Your task to perform on an android device: change the upload size in google photos Image 0: 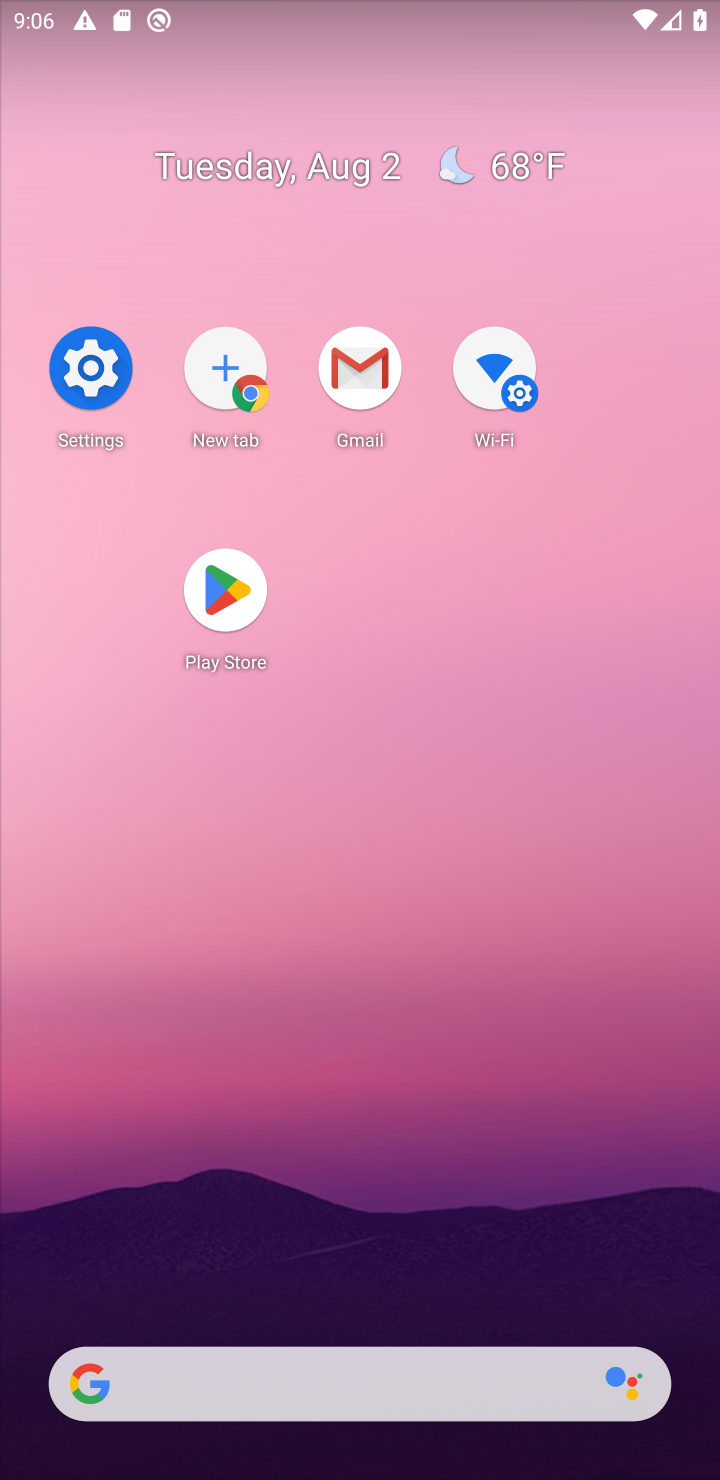
Step 0: click (441, 505)
Your task to perform on an android device: change the upload size in google photos Image 1: 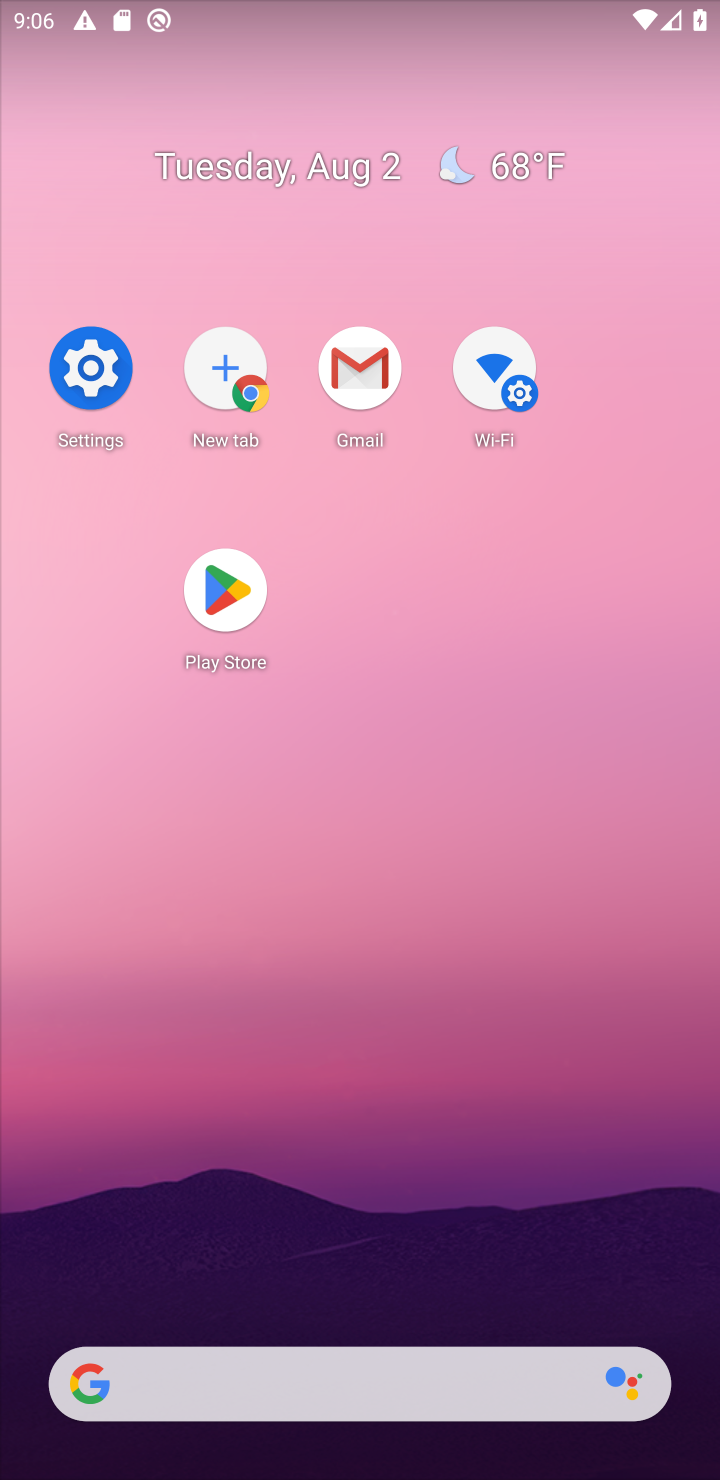
Step 1: click (269, 489)
Your task to perform on an android device: change the upload size in google photos Image 2: 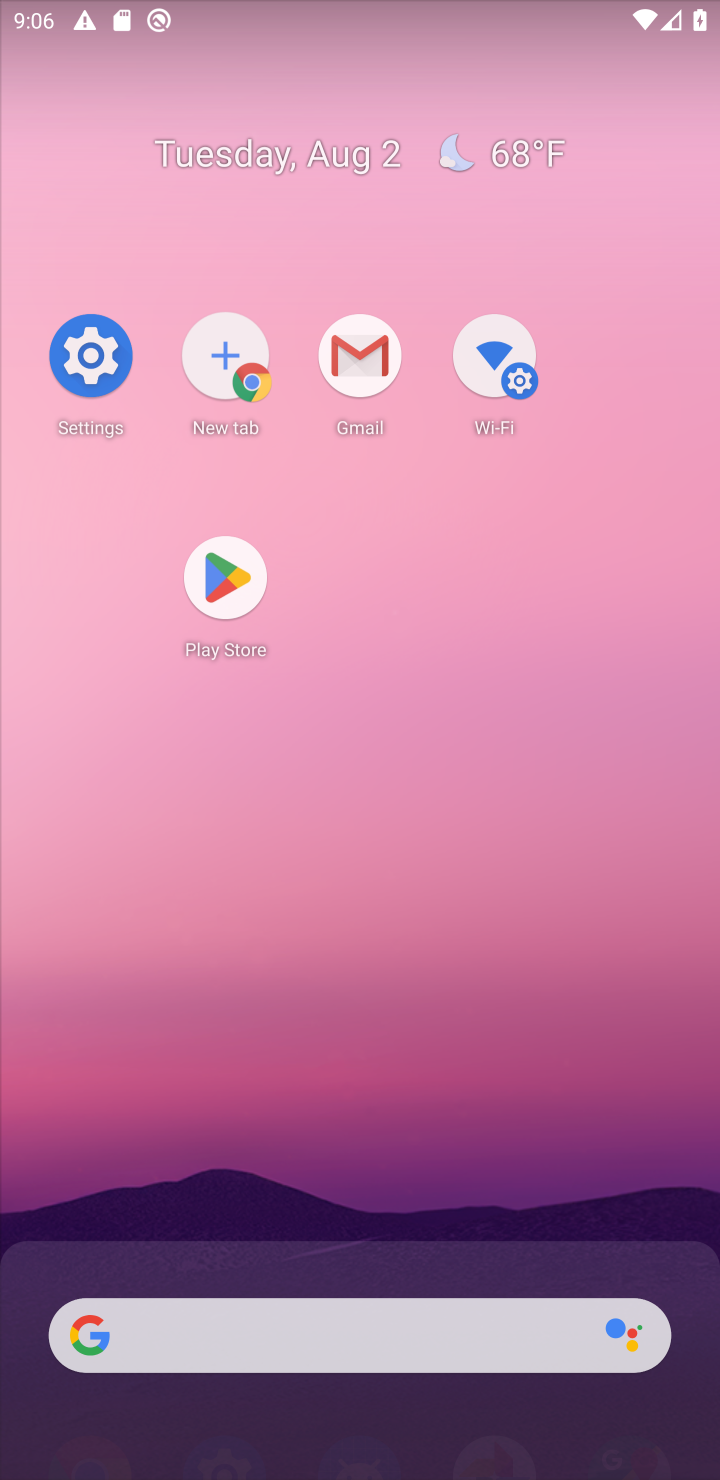
Step 2: click (260, 349)
Your task to perform on an android device: change the upload size in google photos Image 3: 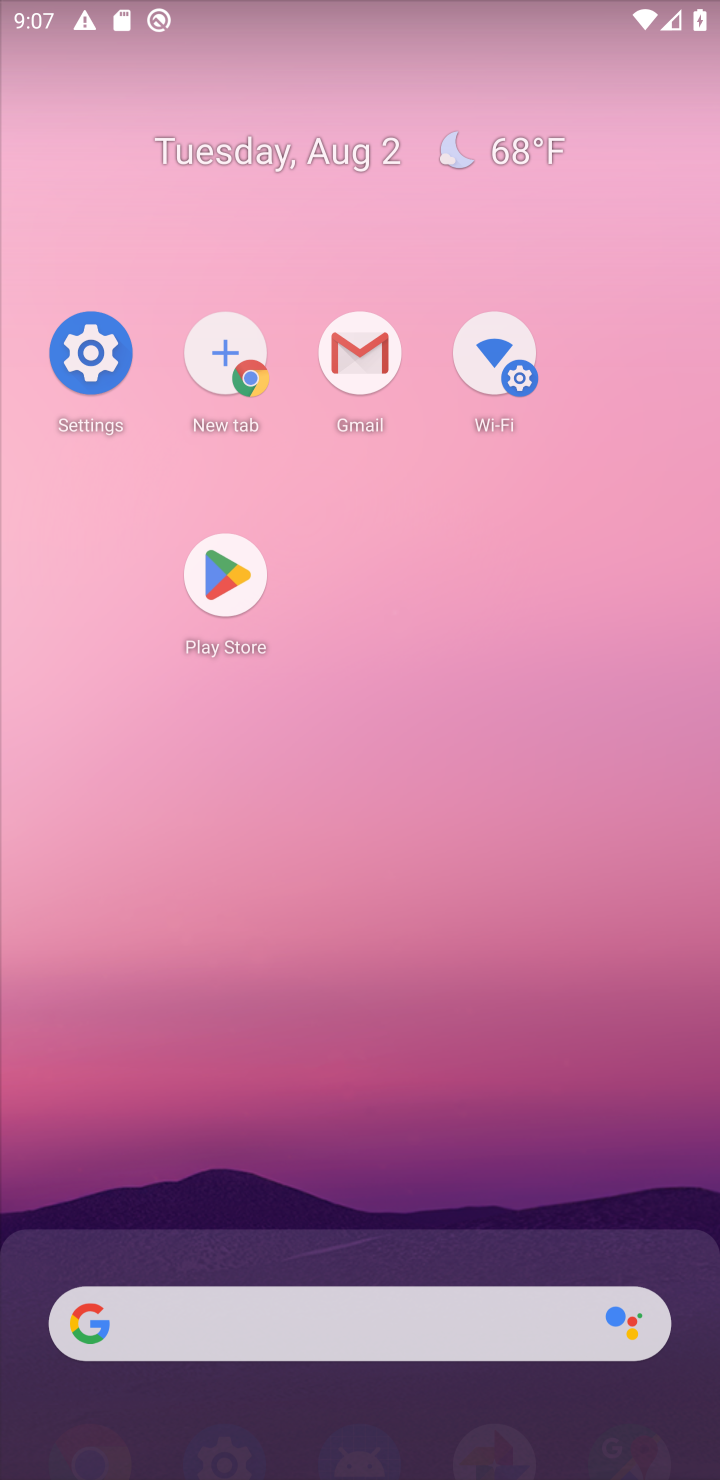
Step 3: click (456, 266)
Your task to perform on an android device: change the upload size in google photos Image 4: 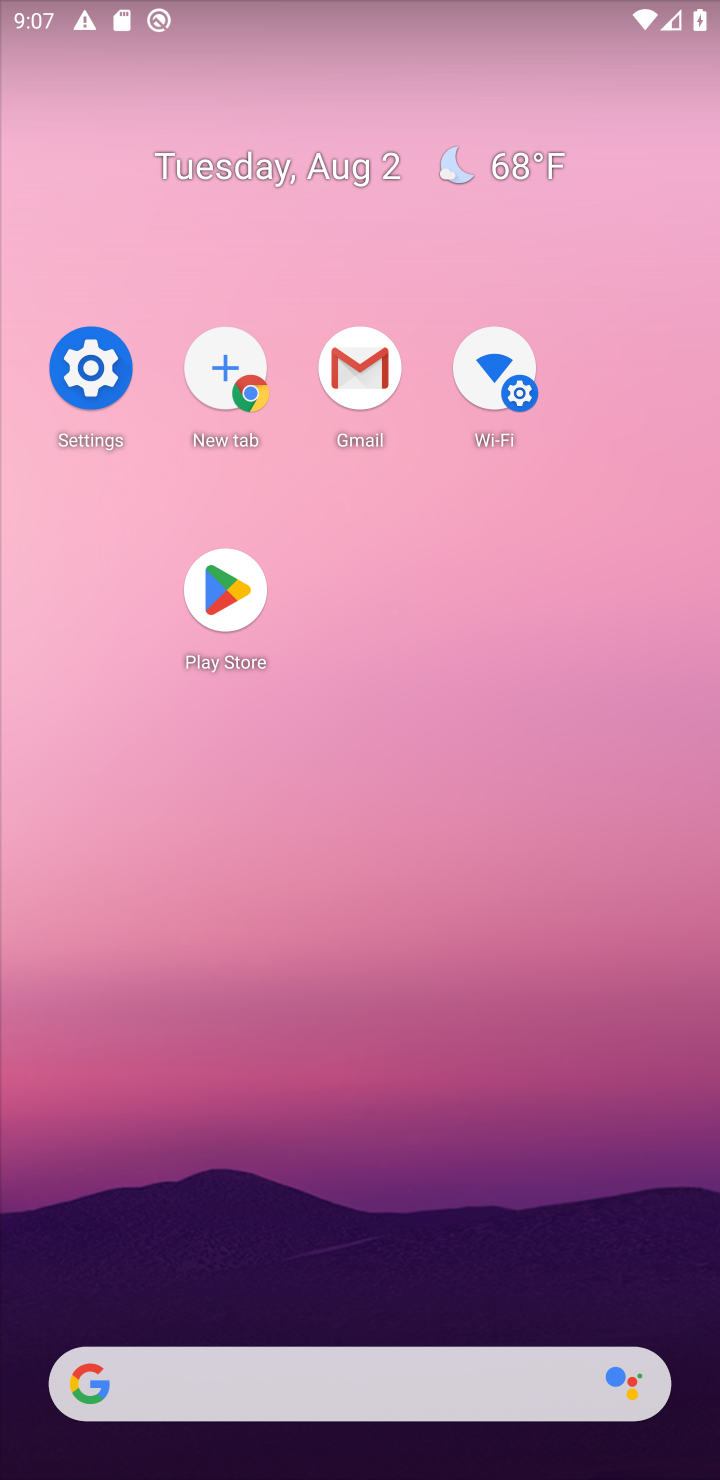
Step 4: click (340, 269)
Your task to perform on an android device: change the upload size in google photos Image 5: 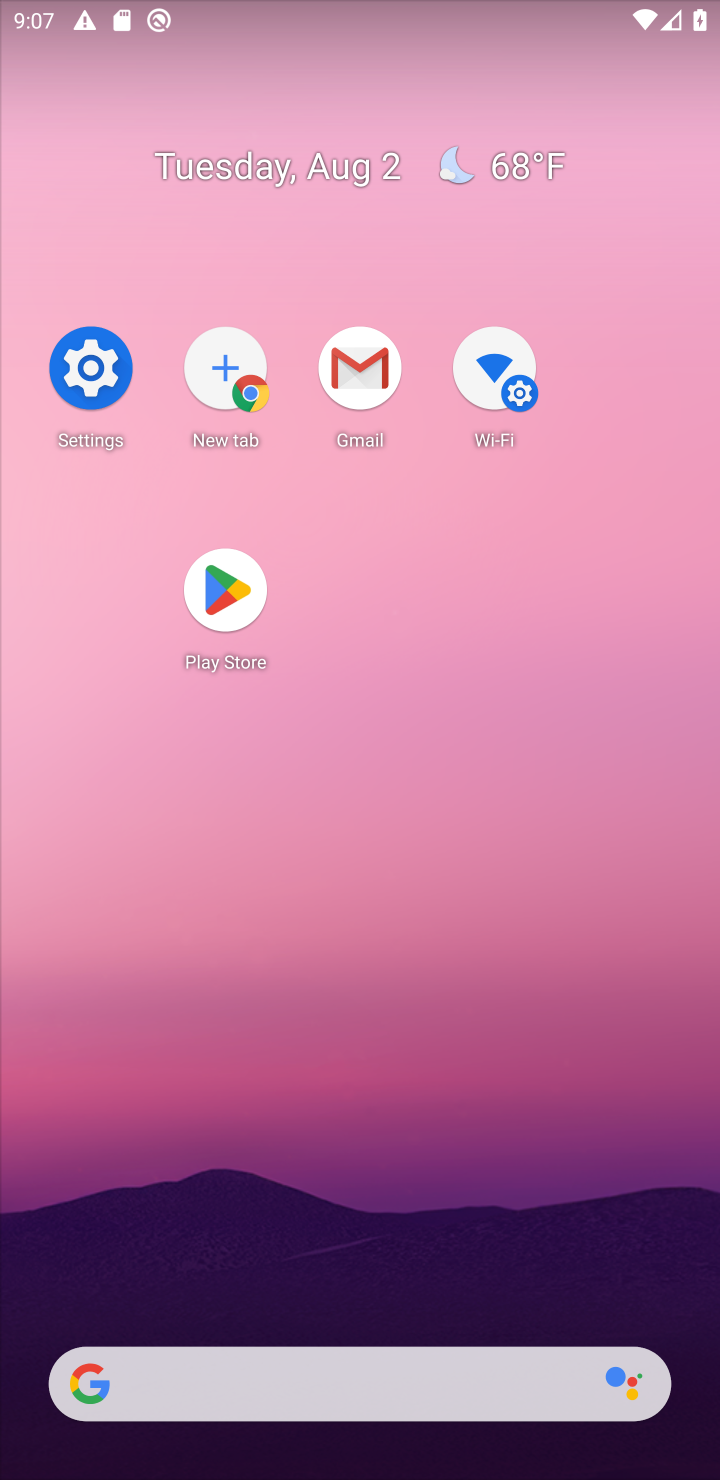
Step 5: drag from (284, 257) to (364, 554)
Your task to perform on an android device: change the upload size in google photos Image 6: 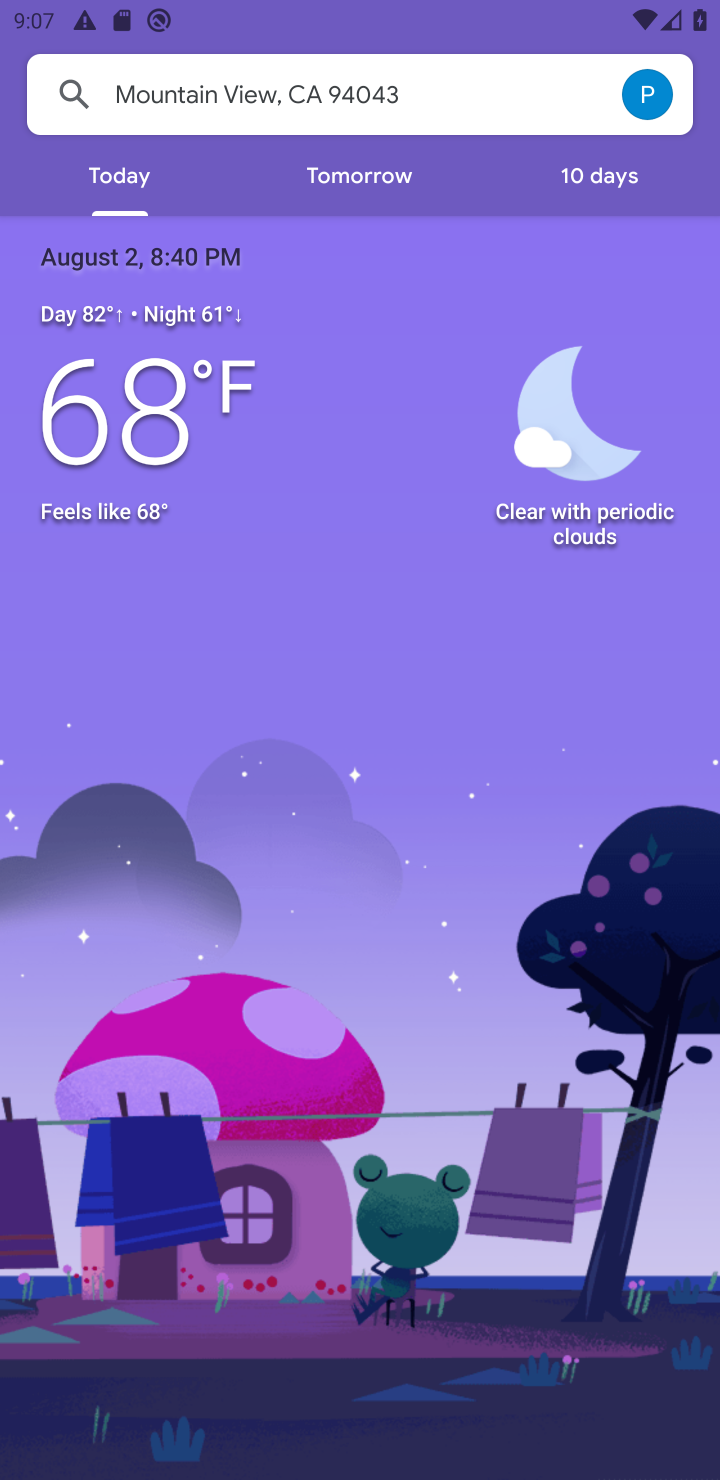
Step 6: press back button
Your task to perform on an android device: change the upload size in google photos Image 7: 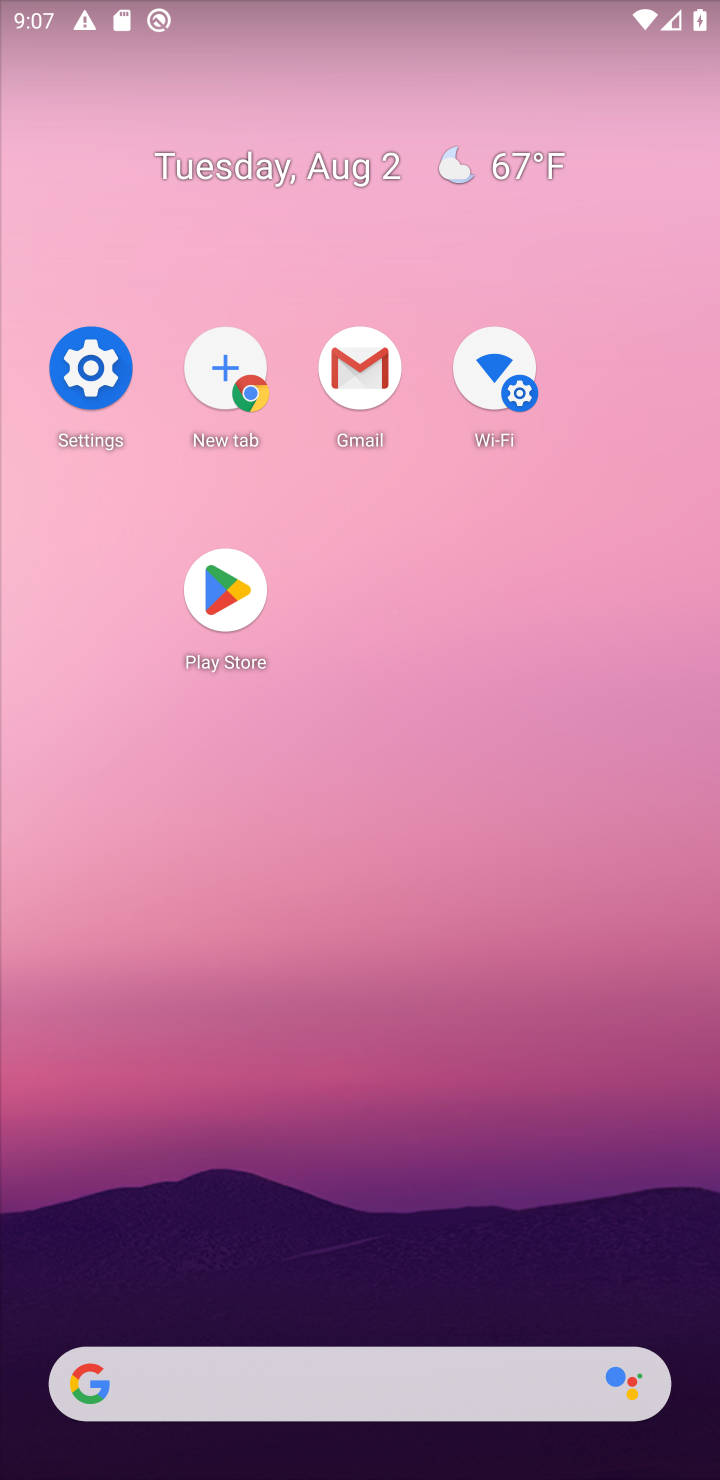
Step 7: drag from (410, 900) to (369, 715)
Your task to perform on an android device: change the upload size in google photos Image 8: 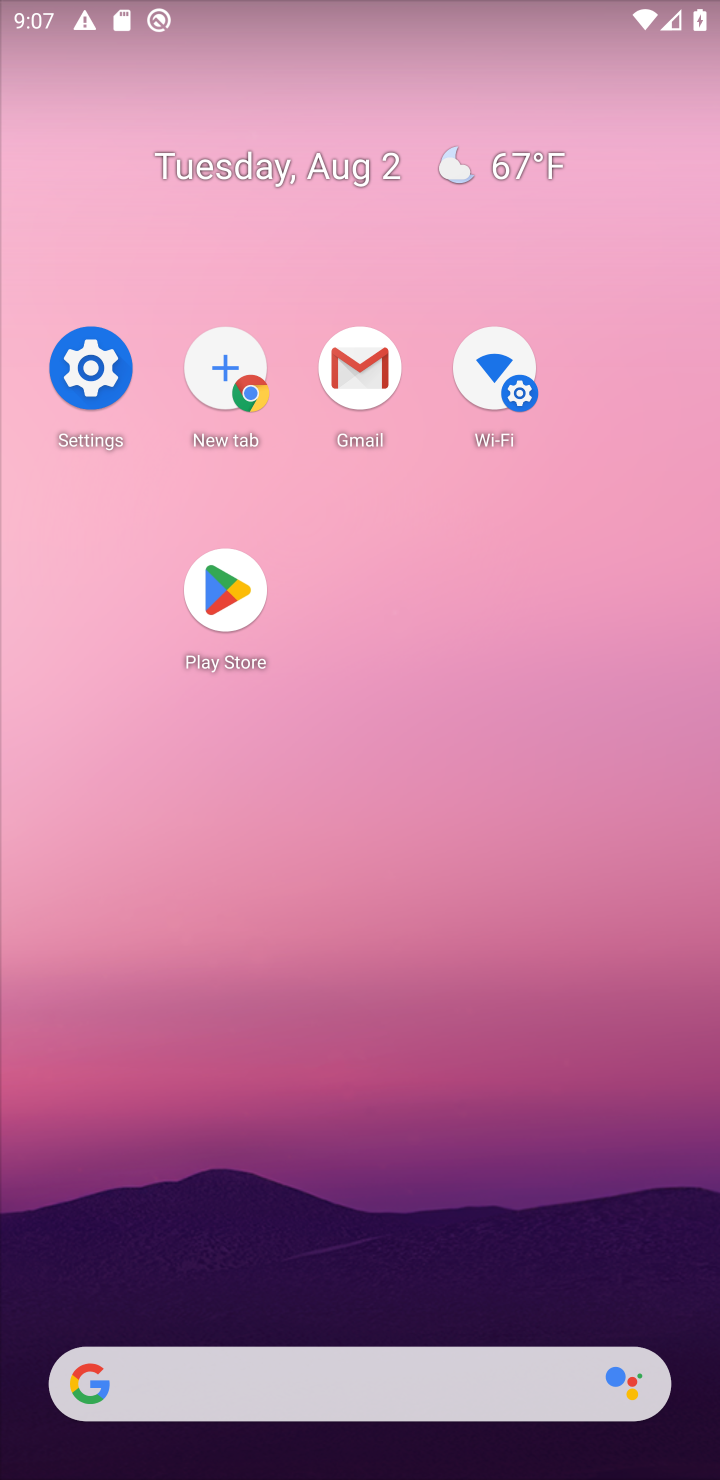
Step 8: drag from (290, 890) to (299, 528)
Your task to perform on an android device: change the upload size in google photos Image 9: 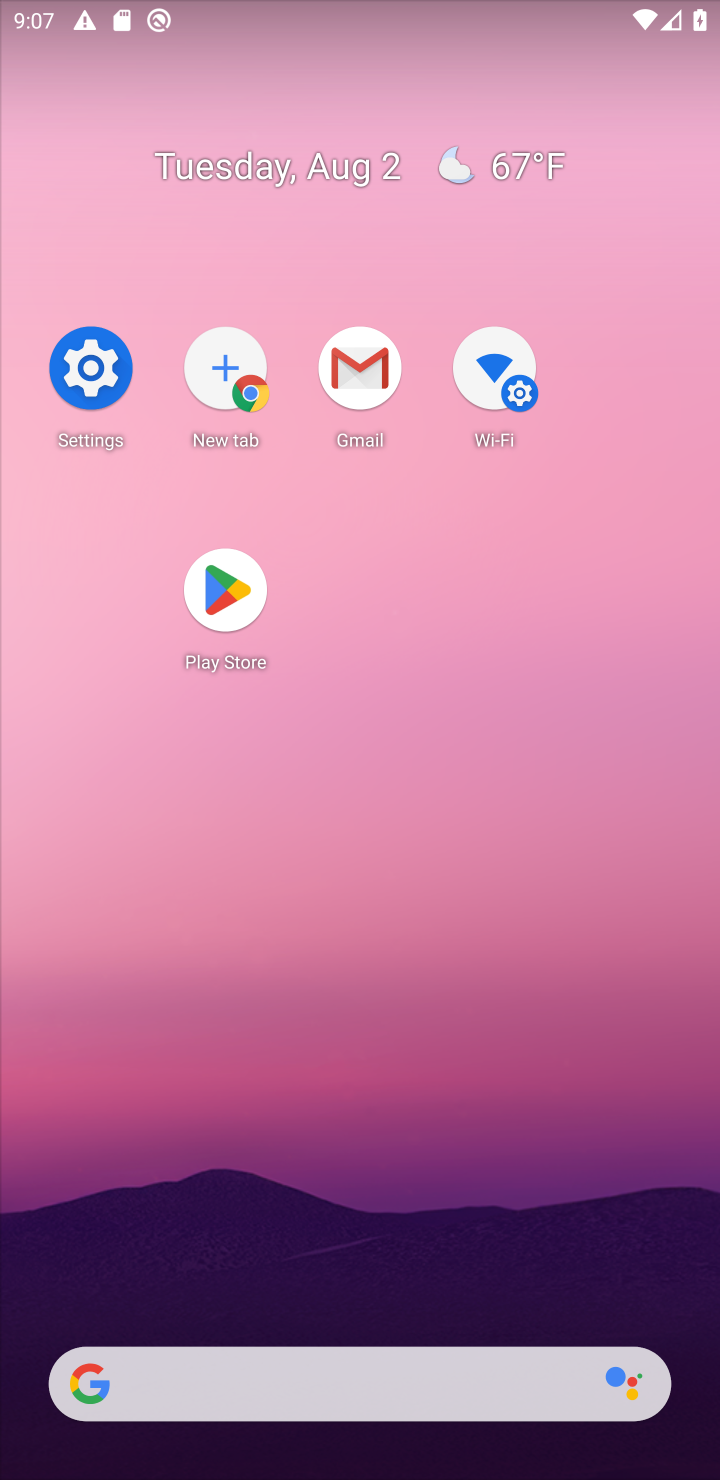
Step 9: drag from (358, 766) to (358, 507)
Your task to perform on an android device: change the upload size in google photos Image 10: 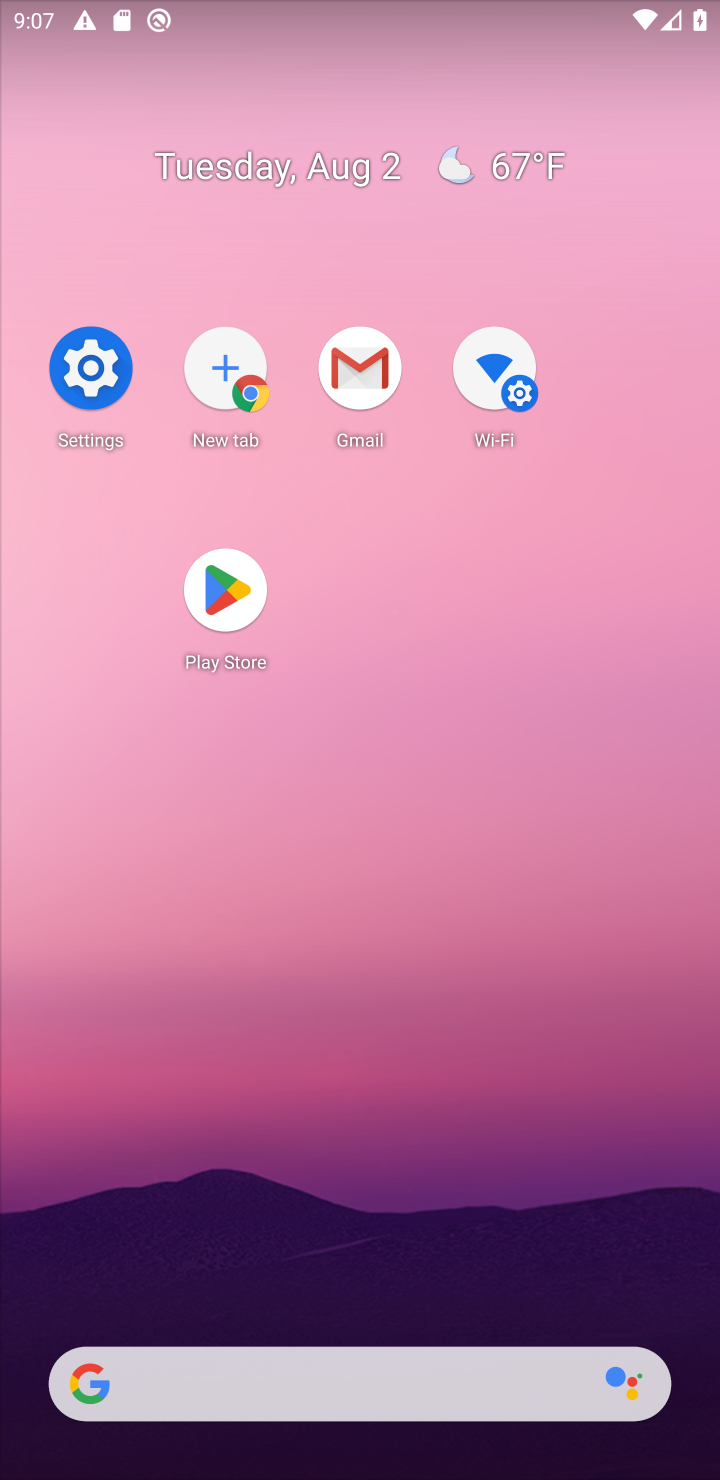
Step 10: drag from (482, 1056) to (379, 454)
Your task to perform on an android device: change the upload size in google photos Image 11: 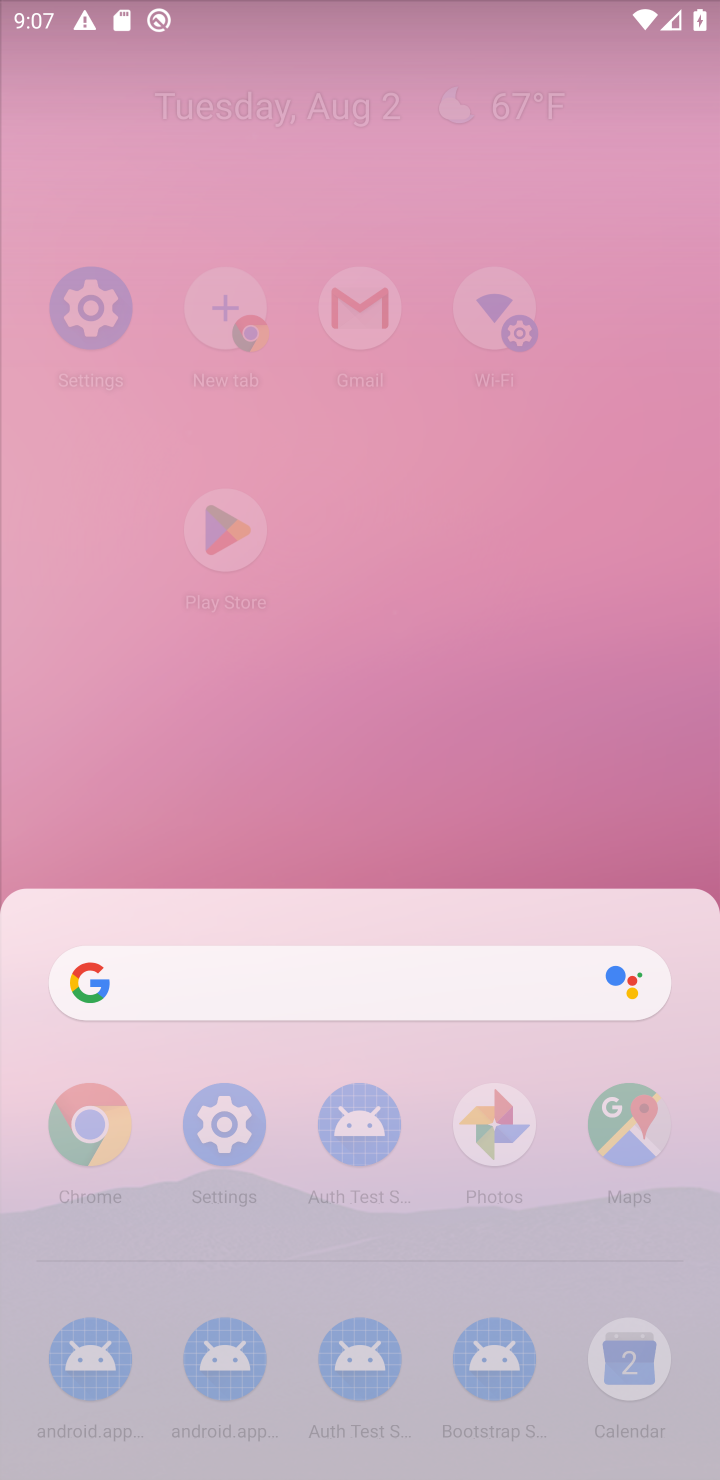
Step 11: click (332, 204)
Your task to perform on an android device: change the upload size in google photos Image 12: 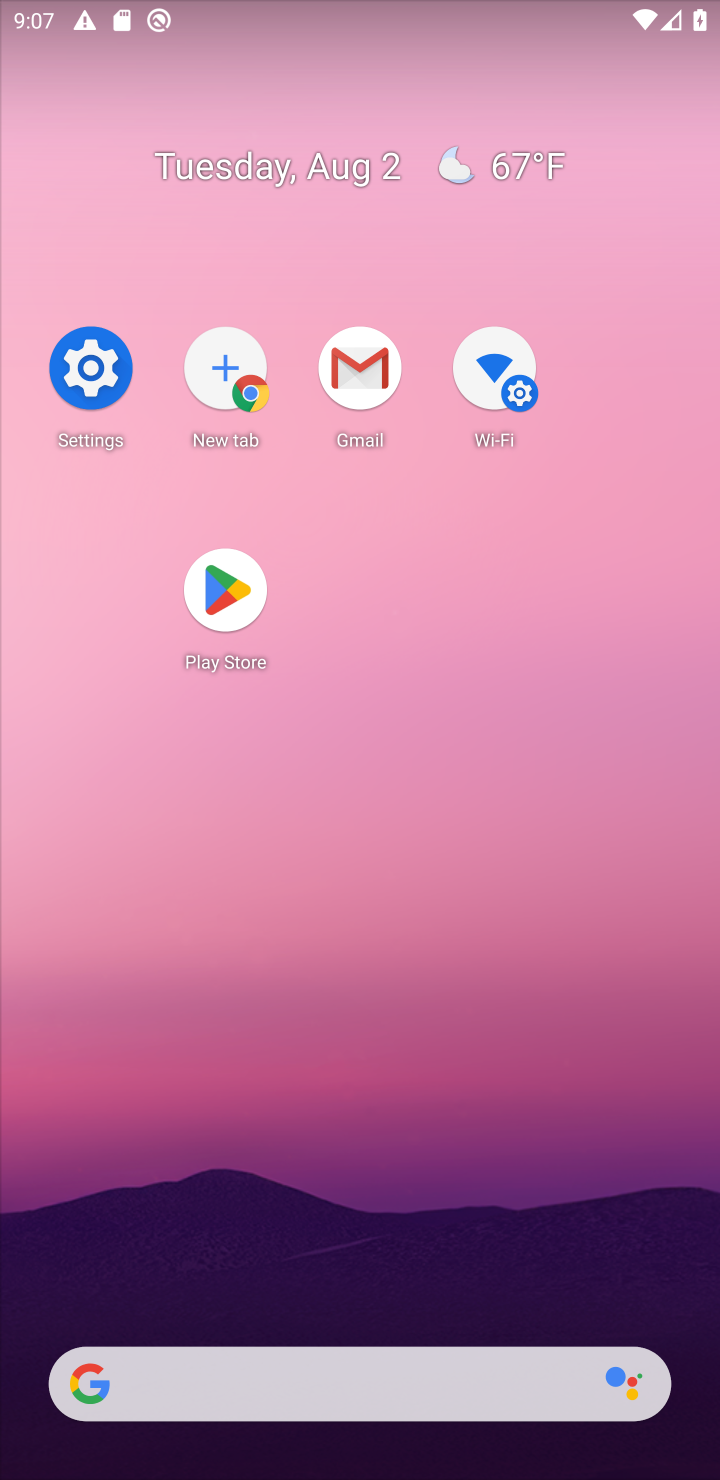
Step 12: drag from (401, 478) to (313, 442)
Your task to perform on an android device: change the upload size in google photos Image 13: 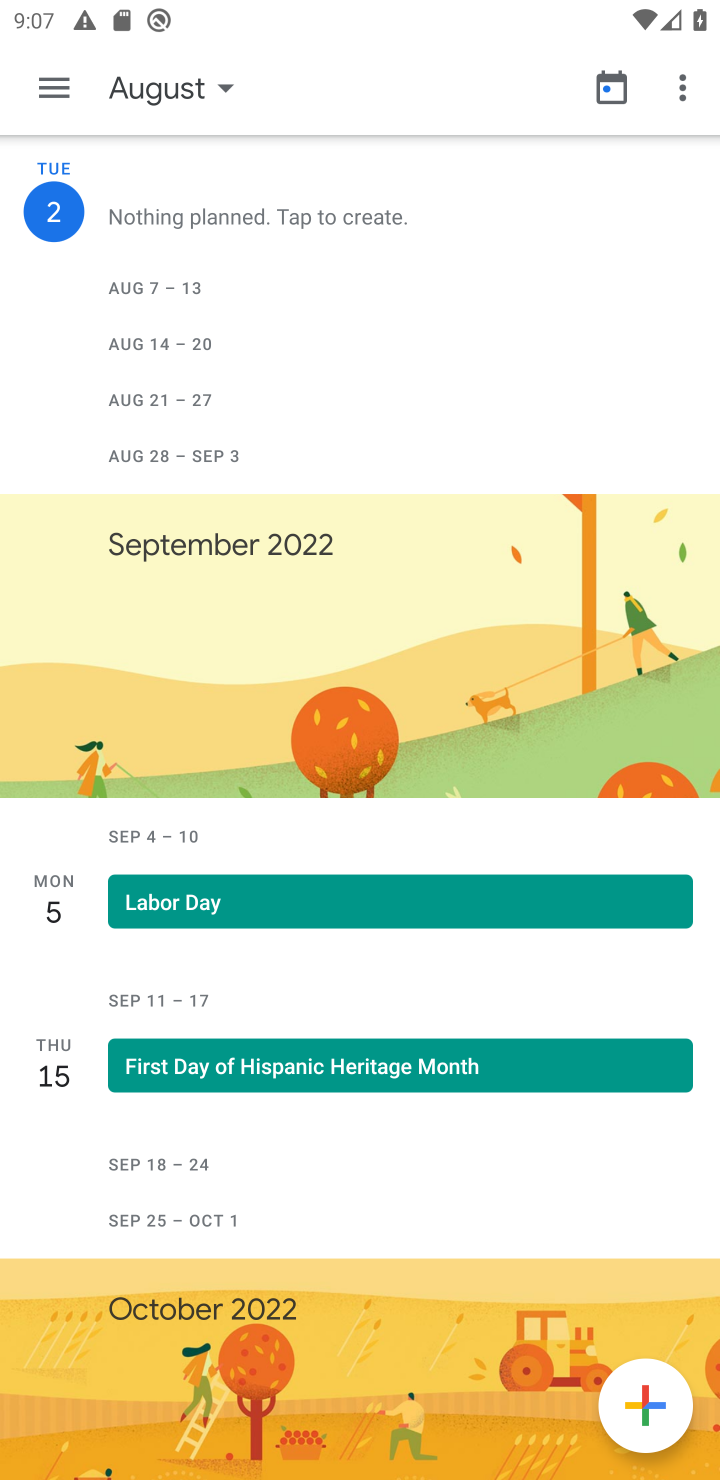
Step 13: click (360, 303)
Your task to perform on an android device: change the upload size in google photos Image 14: 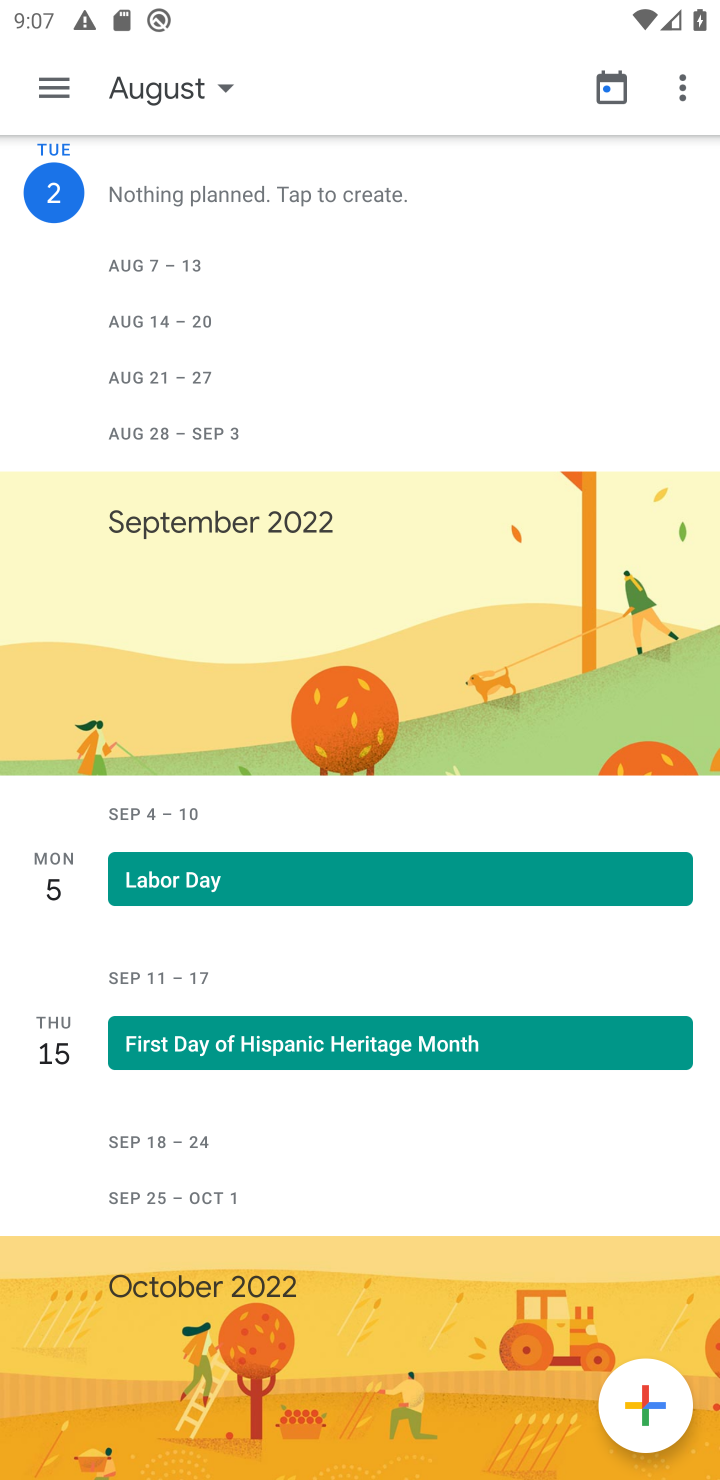
Step 14: press back button
Your task to perform on an android device: change the upload size in google photos Image 15: 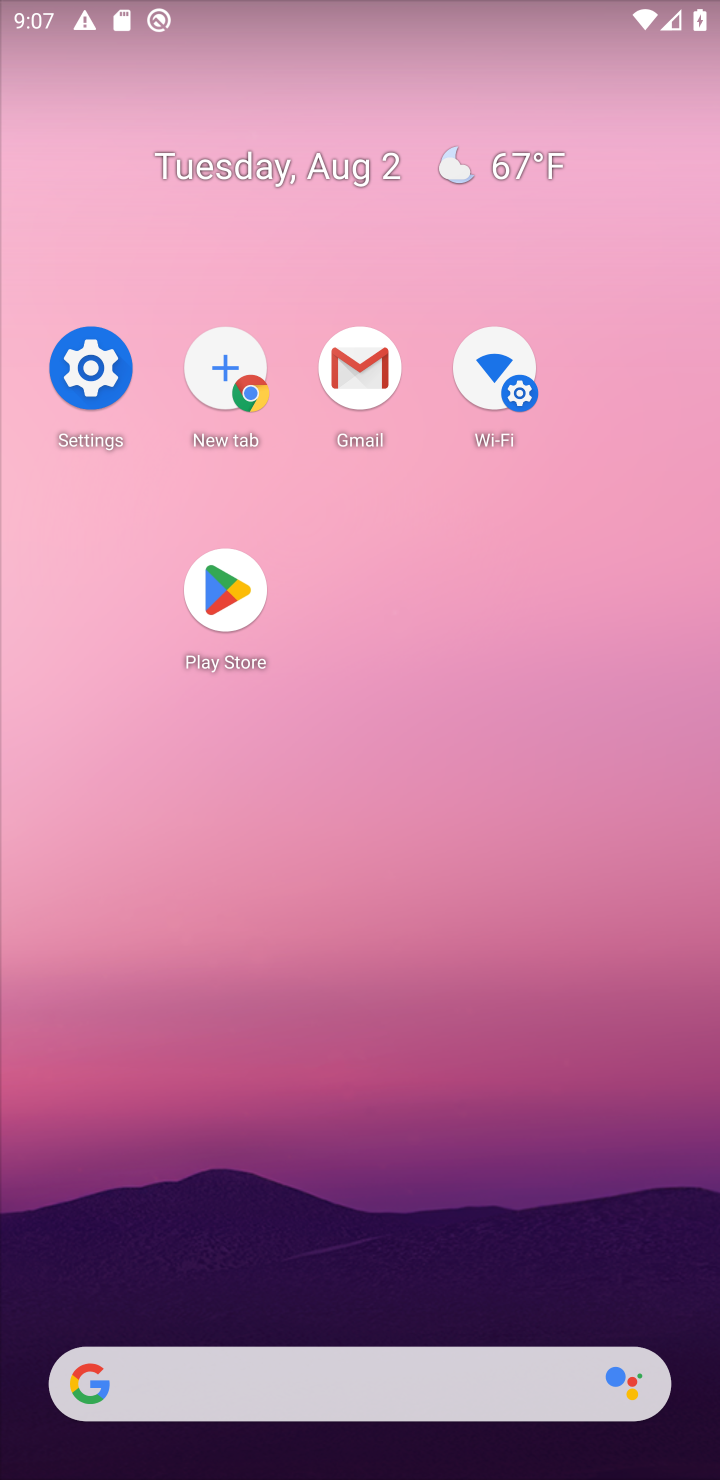
Step 15: drag from (357, 716) to (299, 345)
Your task to perform on an android device: change the upload size in google photos Image 16: 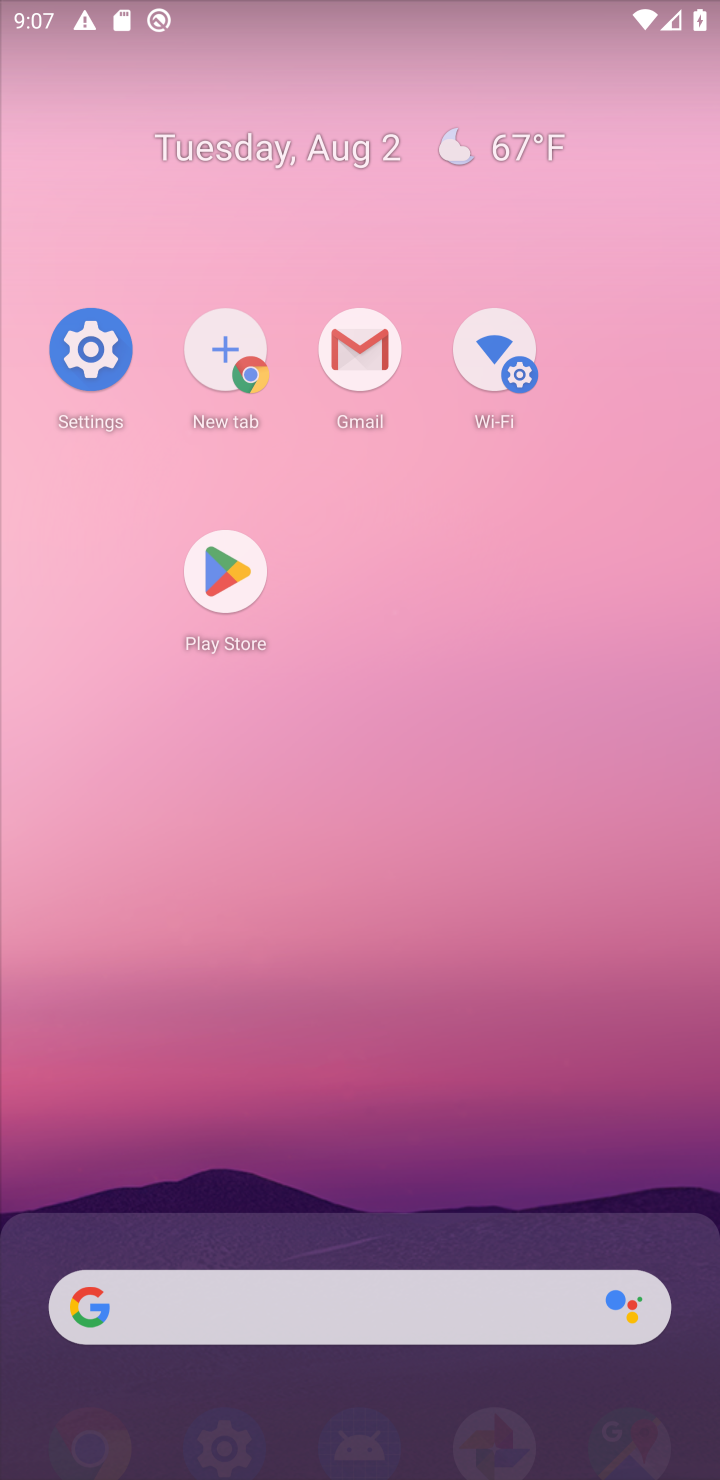
Step 16: drag from (350, 784) to (301, 411)
Your task to perform on an android device: change the upload size in google photos Image 17: 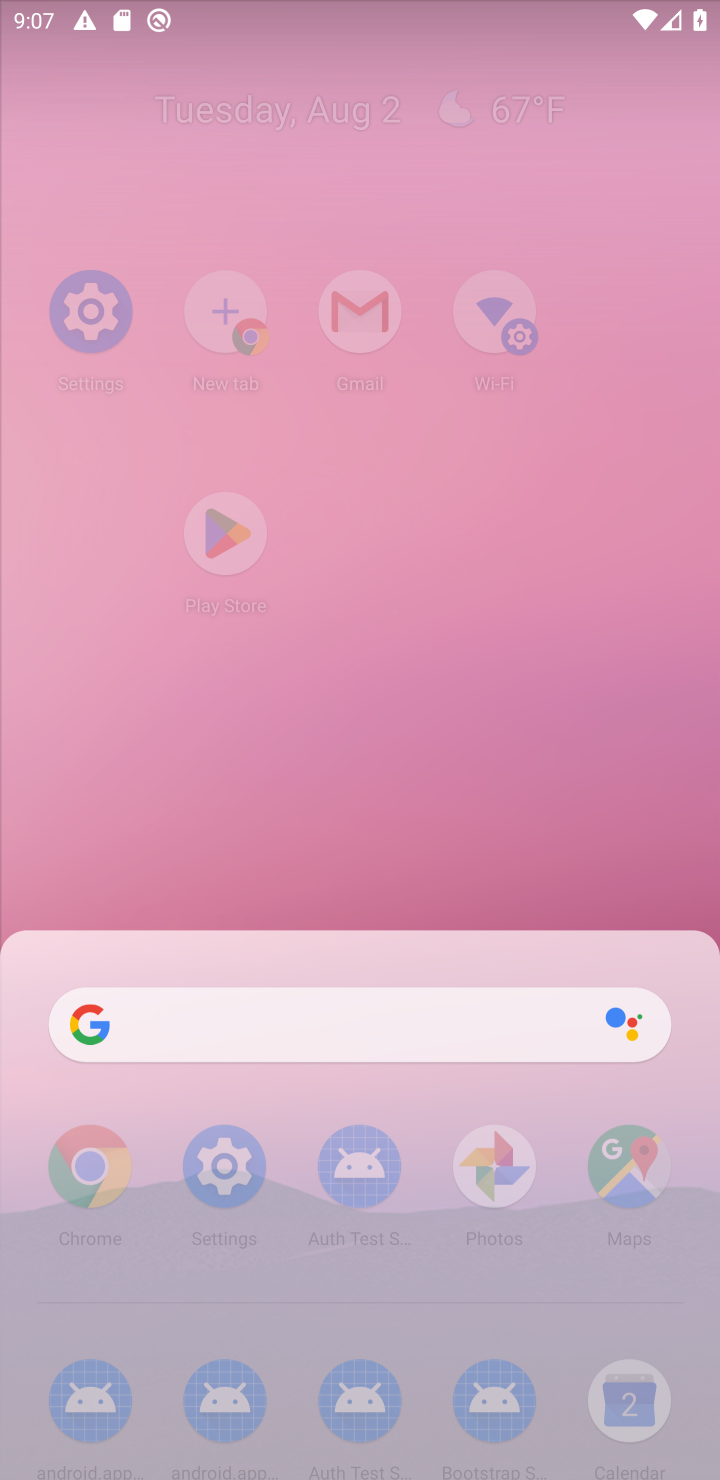
Step 17: drag from (287, 676) to (250, 346)
Your task to perform on an android device: change the upload size in google photos Image 18: 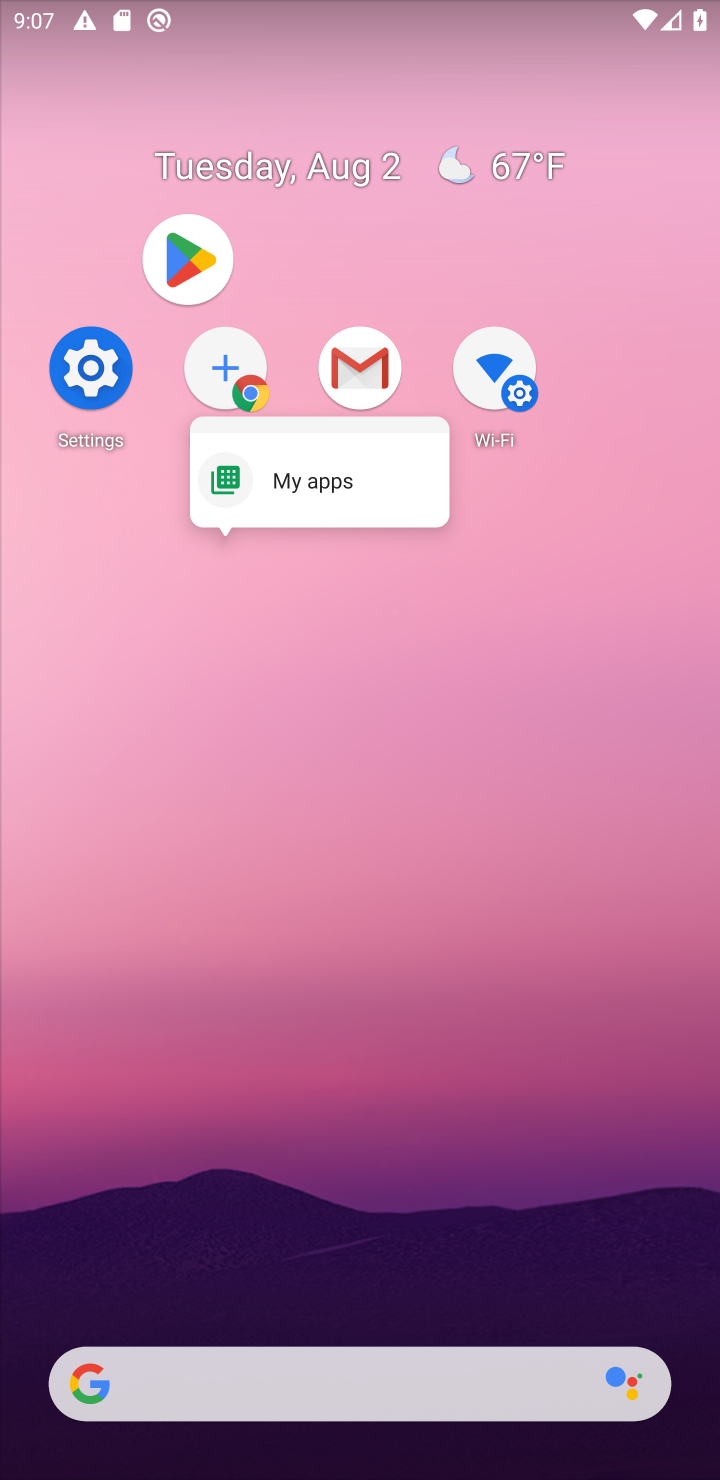
Step 18: click (203, 298)
Your task to perform on an android device: change the upload size in google photos Image 19: 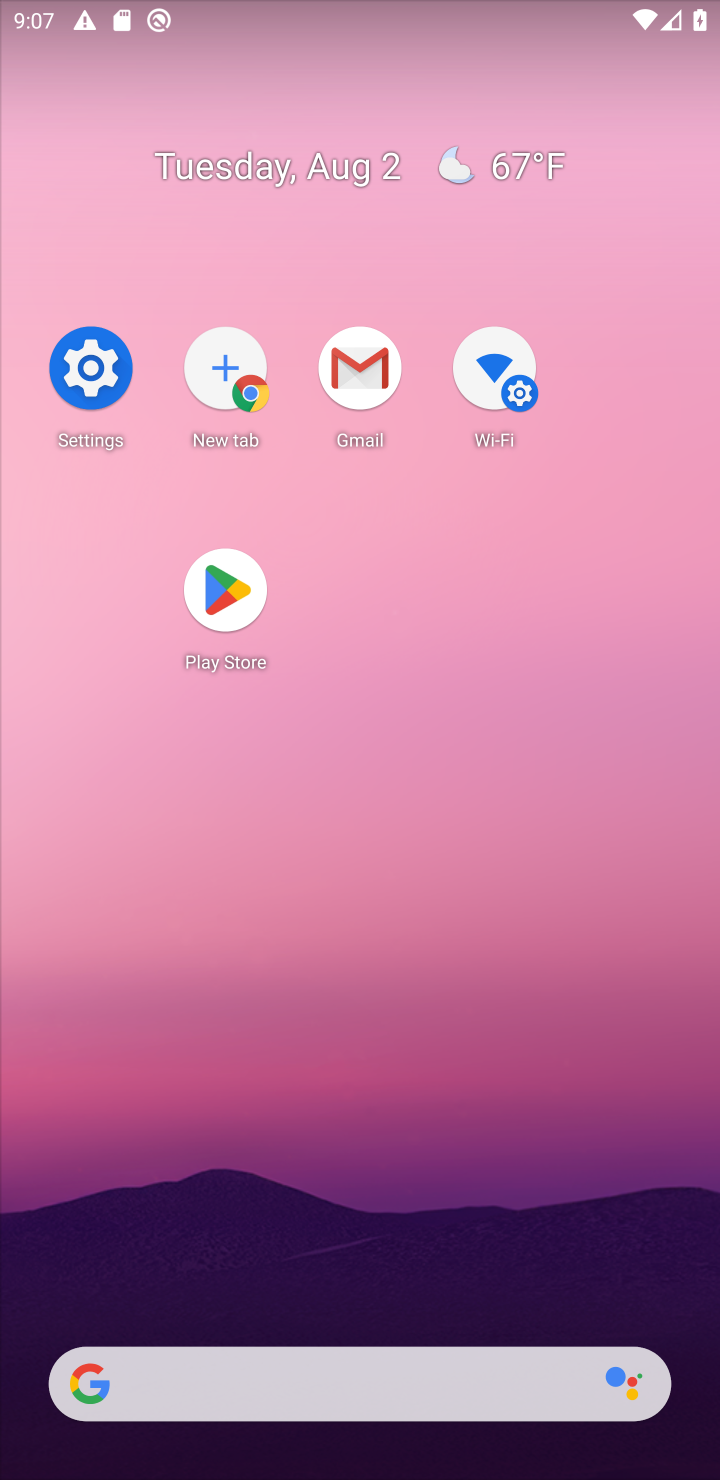
Step 19: drag from (379, 729) to (291, 334)
Your task to perform on an android device: change the upload size in google photos Image 20: 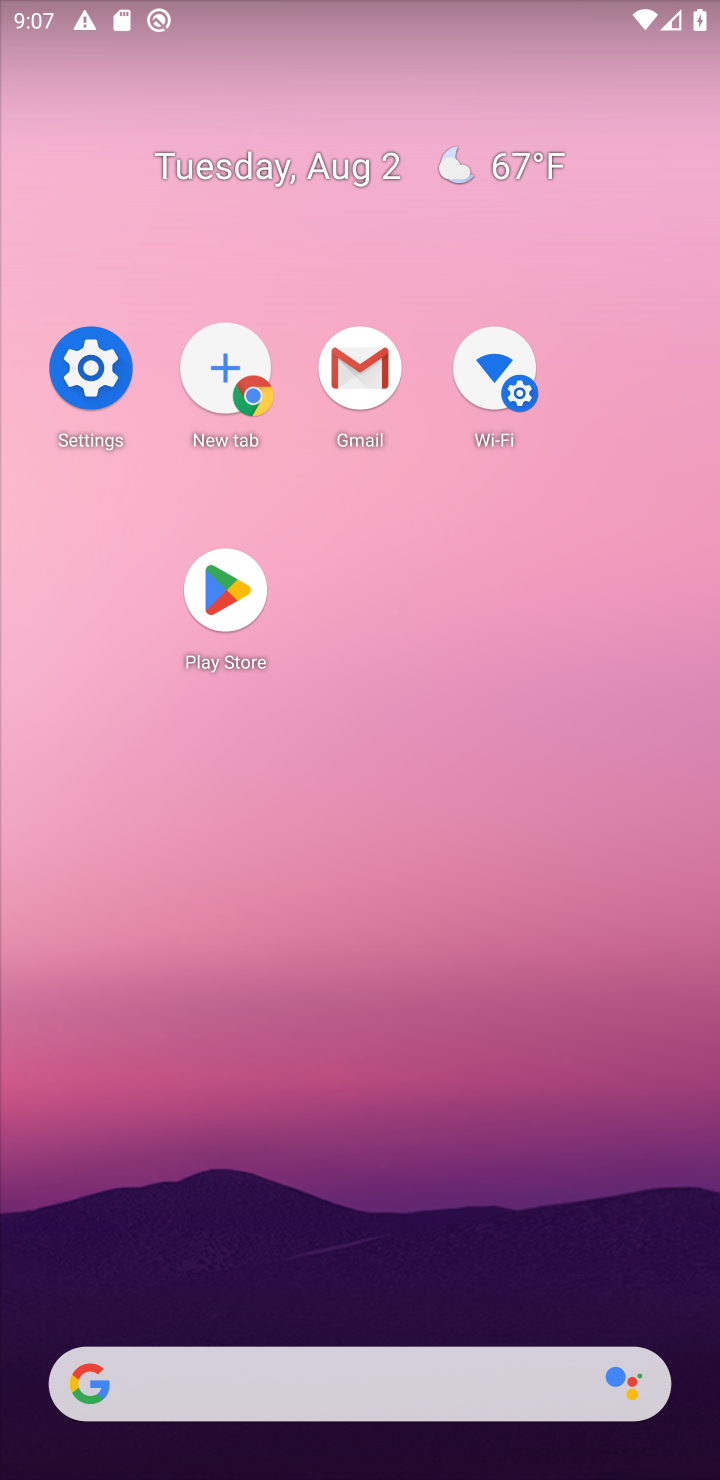
Step 20: drag from (354, 959) to (328, 218)
Your task to perform on an android device: change the upload size in google photos Image 21: 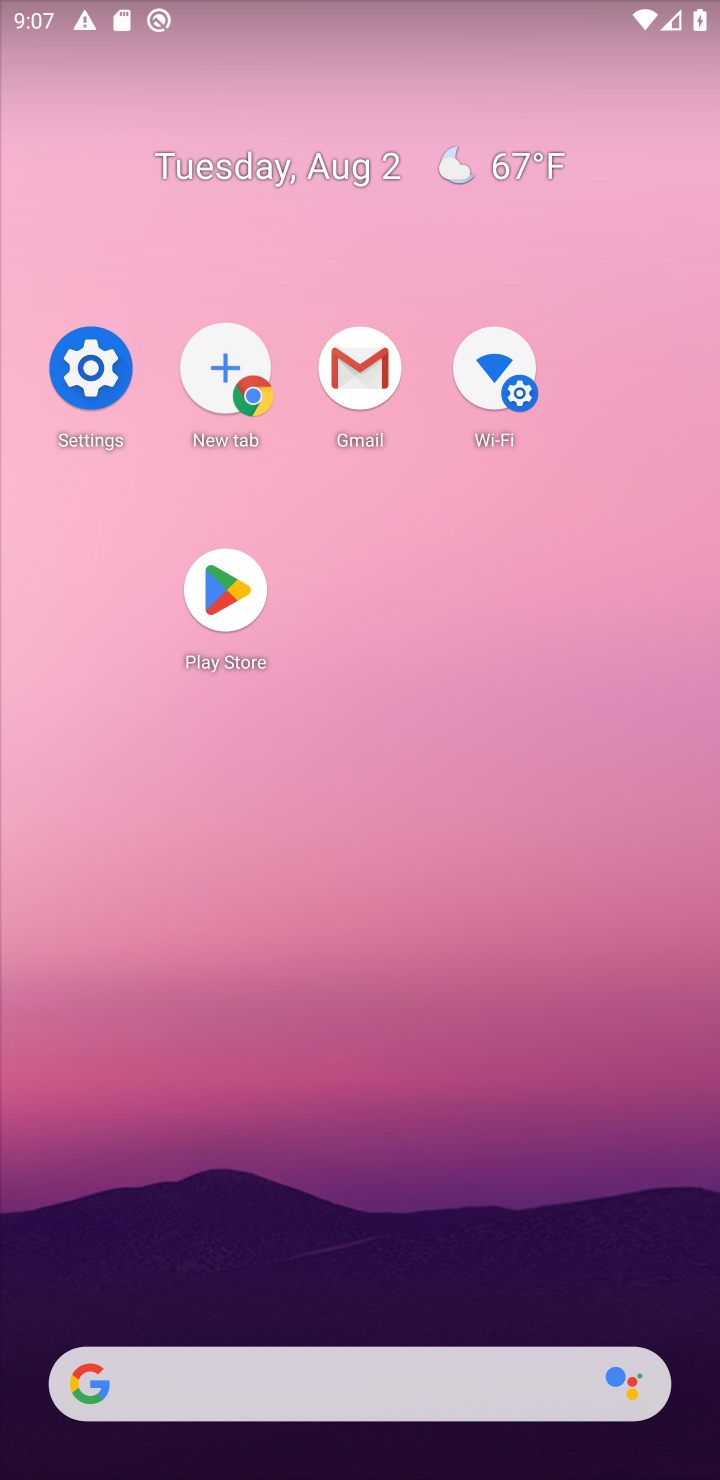
Step 21: click (294, 179)
Your task to perform on an android device: change the upload size in google photos Image 22: 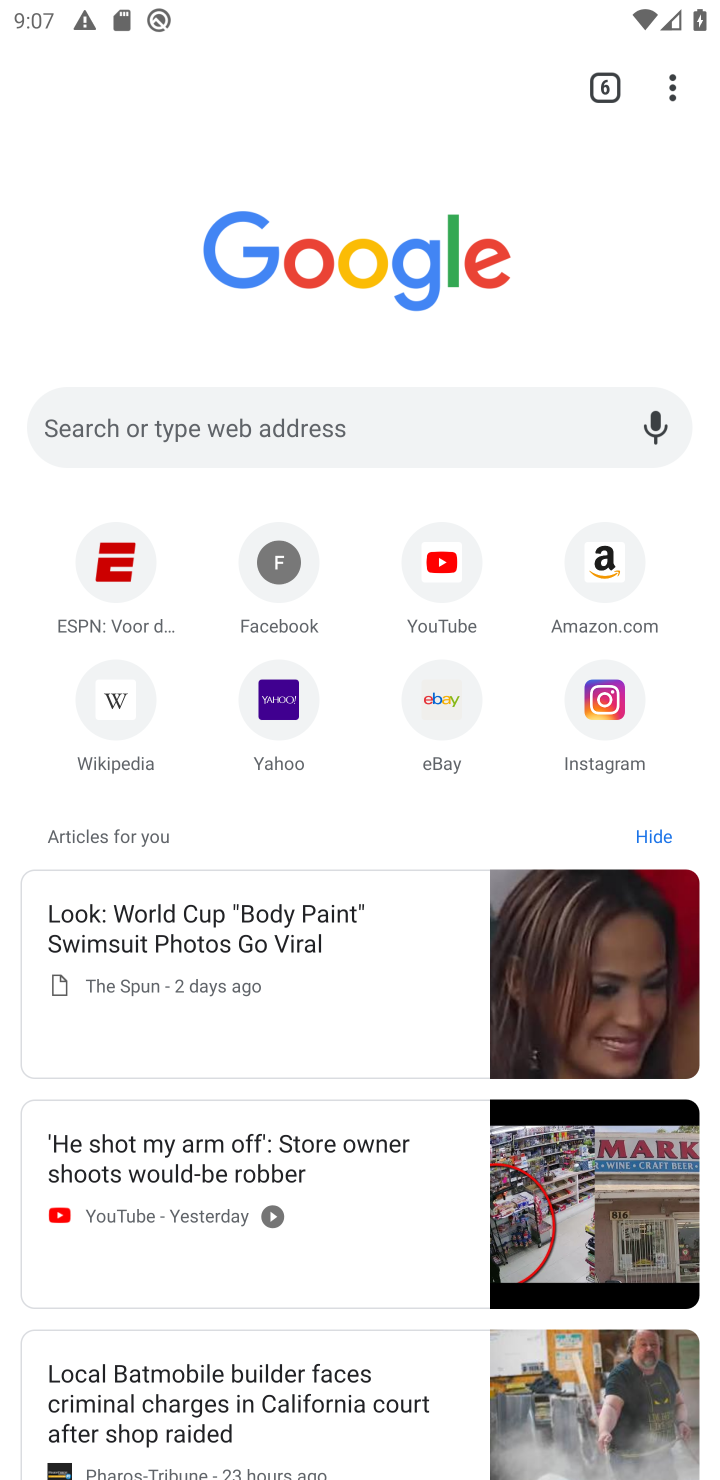
Step 22: press back button
Your task to perform on an android device: change the upload size in google photos Image 23: 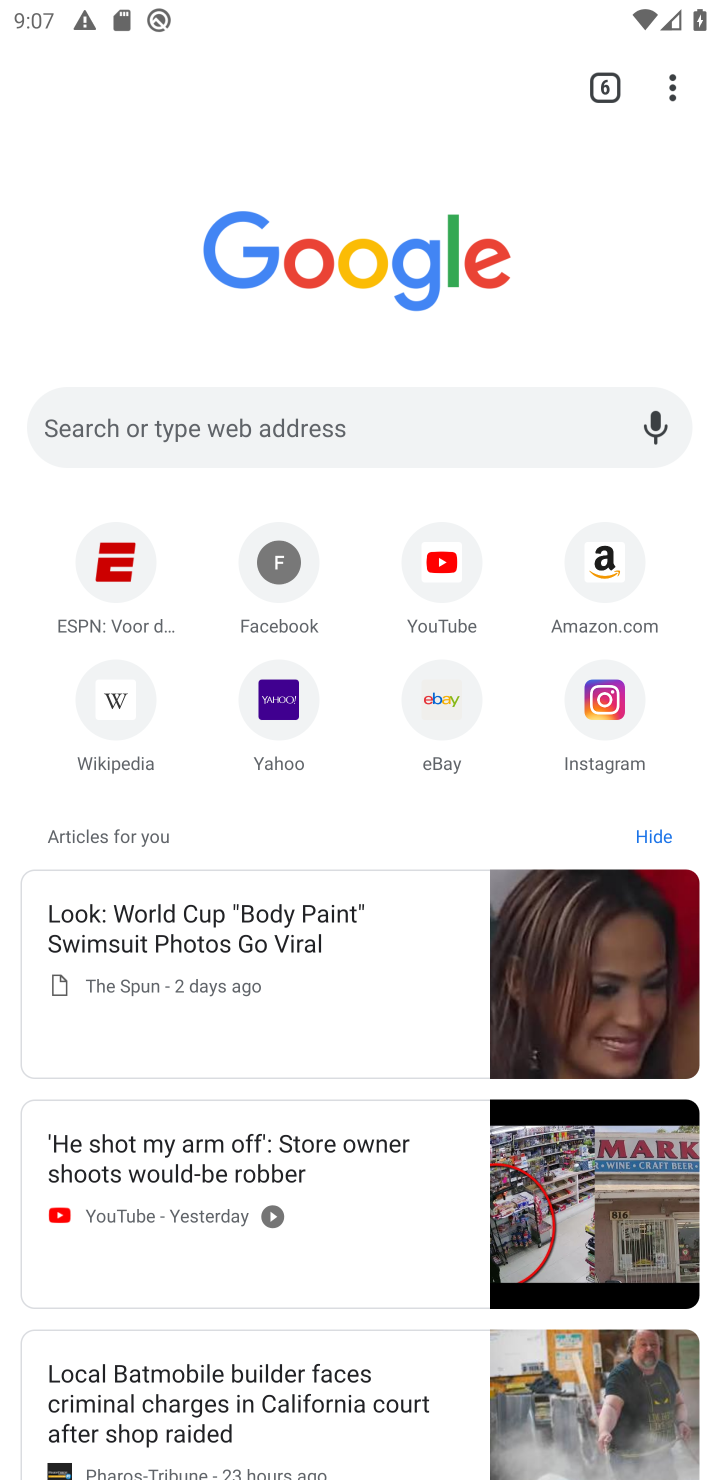
Step 23: press back button
Your task to perform on an android device: change the upload size in google photos Image 24: 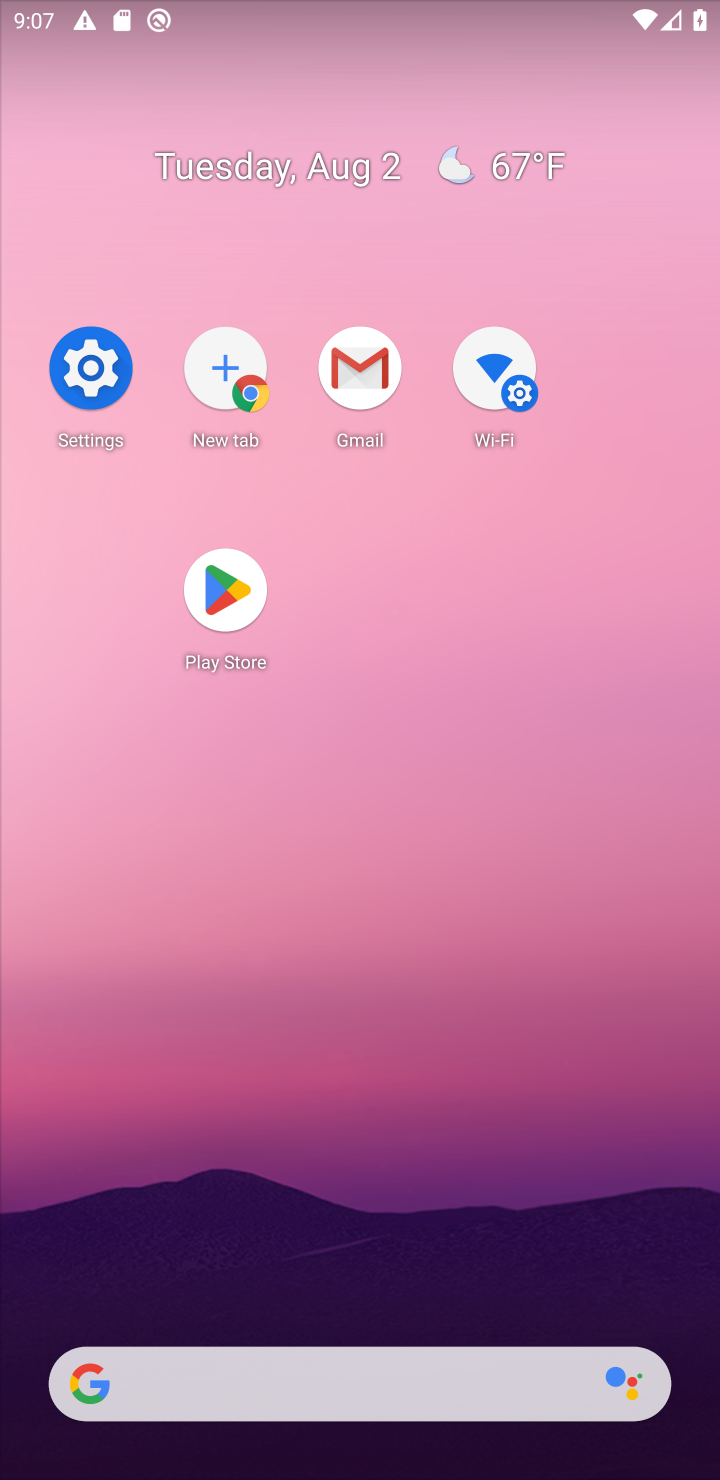
Step 24: press home button
Your task to perform on an android device: change the upload size in google photos Image 25: 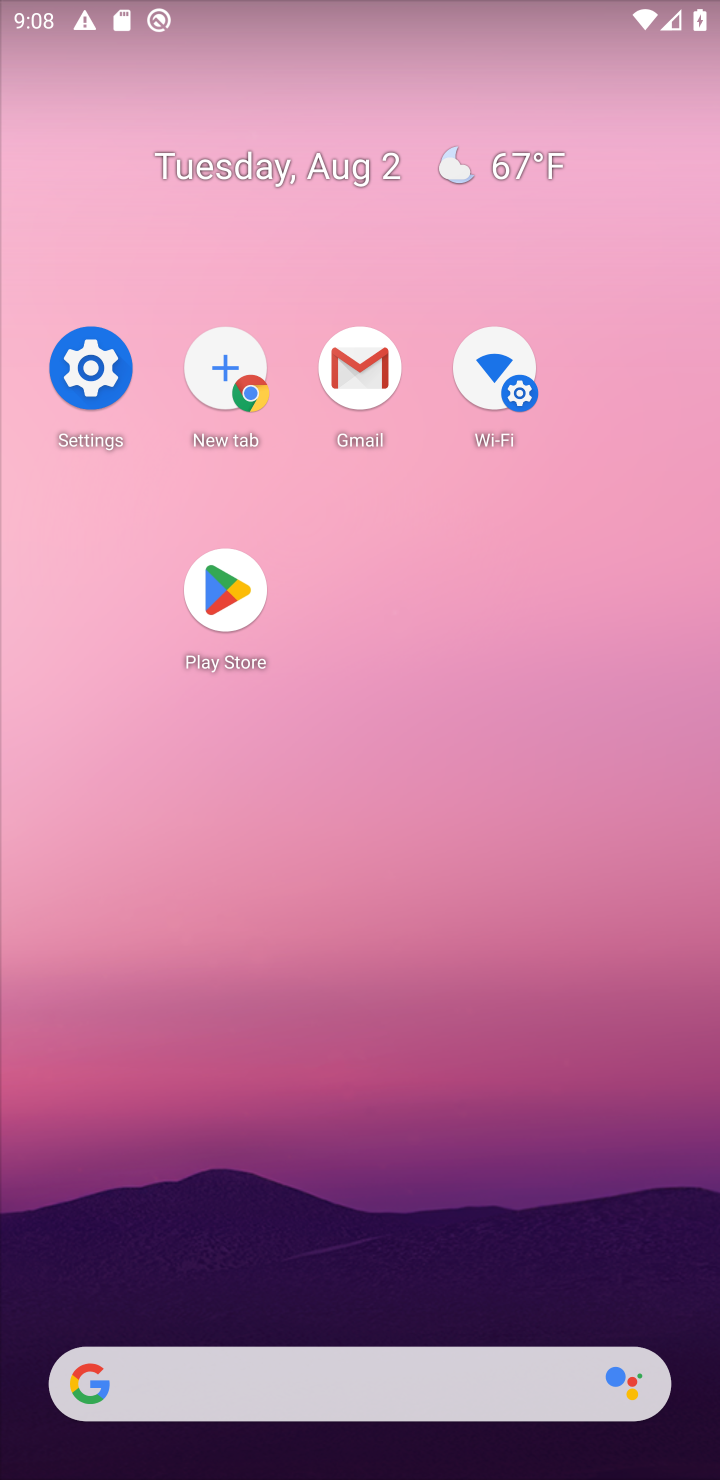
Step 25: drag from (408, 1291) to (341, 494)
Your task to perform on an android device: change the upload size in google photos Image 26: 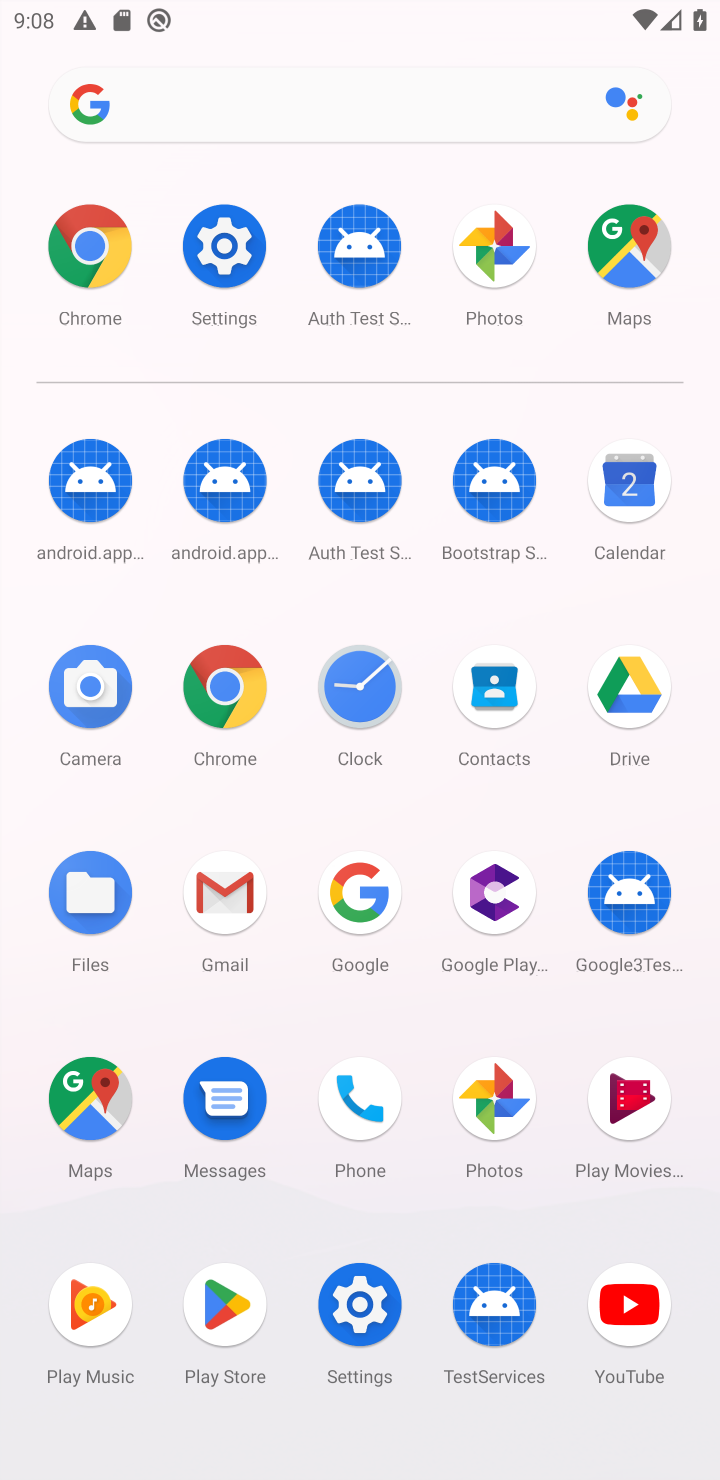
Step 26: click (497, 271)
Your task to perform on an android device: change the upload size in google photos Image 27: 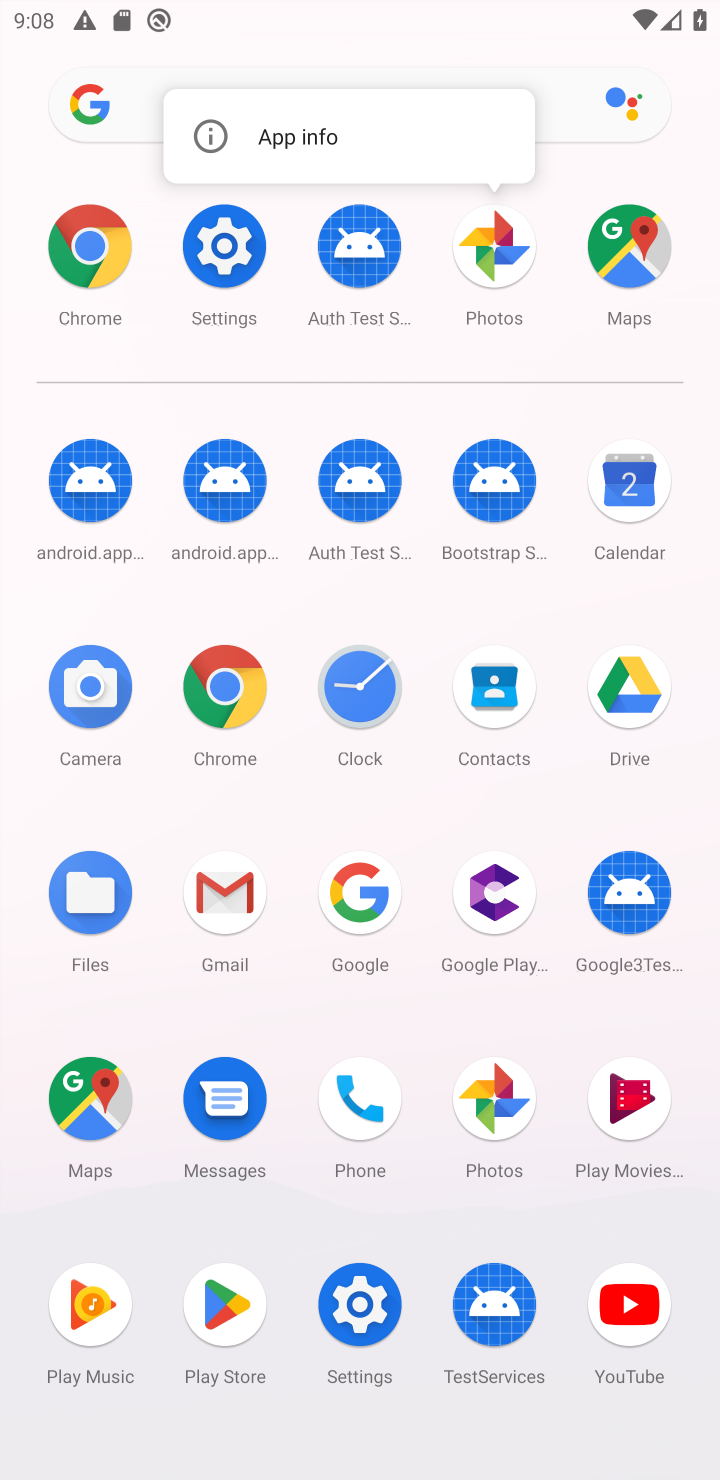
Step 27: click (495, 269)
Your task to perform on an android device: change the upload size in google photos Image 28: 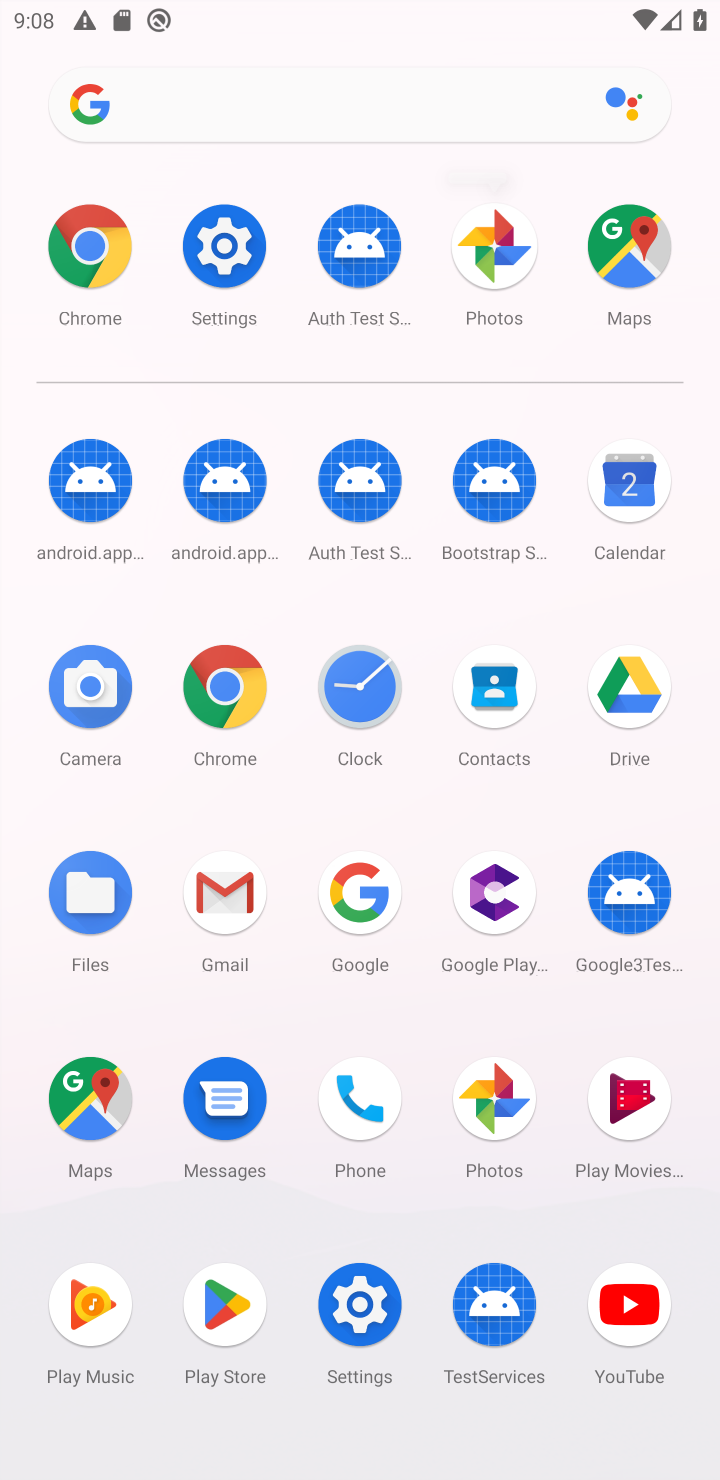
Step 28: click (495, 269)
Your task to perform on an android device: change the upload size in google photos Image 29: 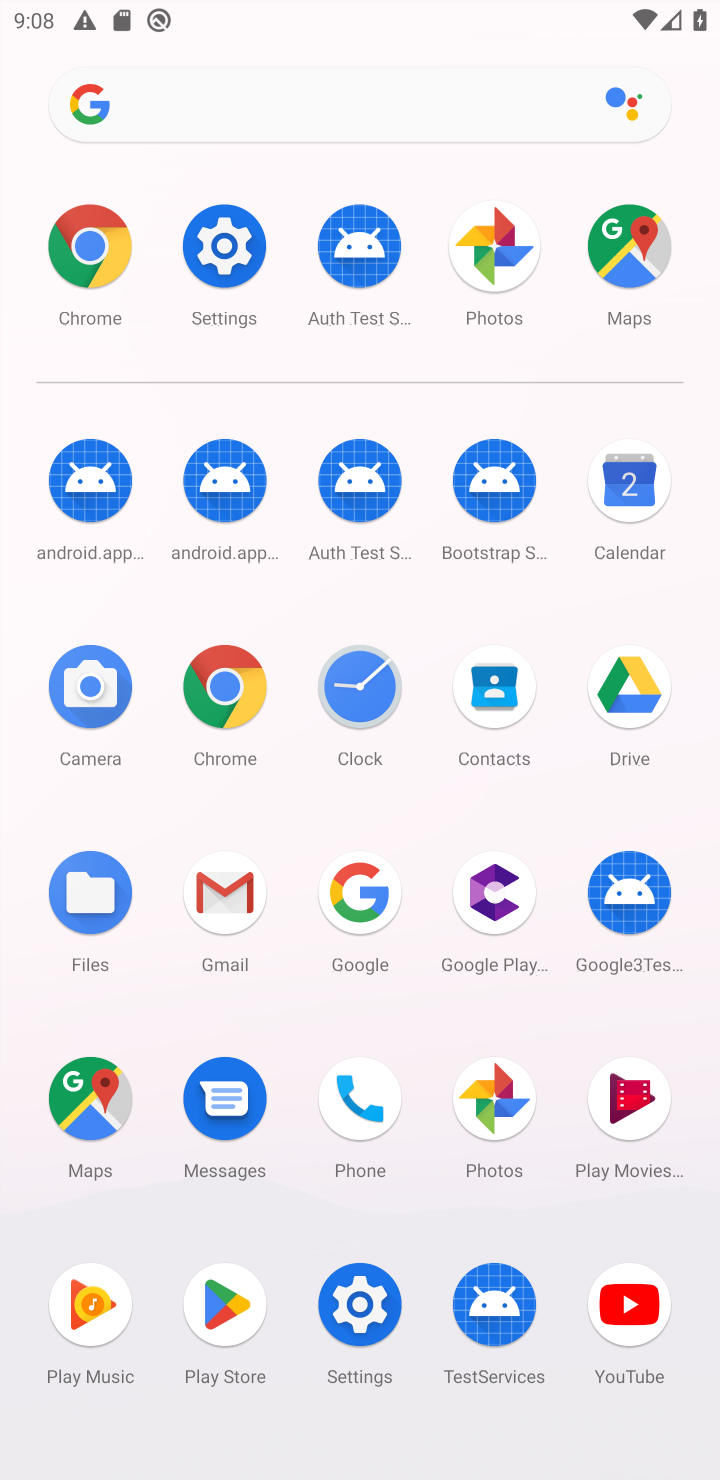
Step 29: click (495, 267)
Your task to perform on an android device: change the upload size in google photos Image 30: 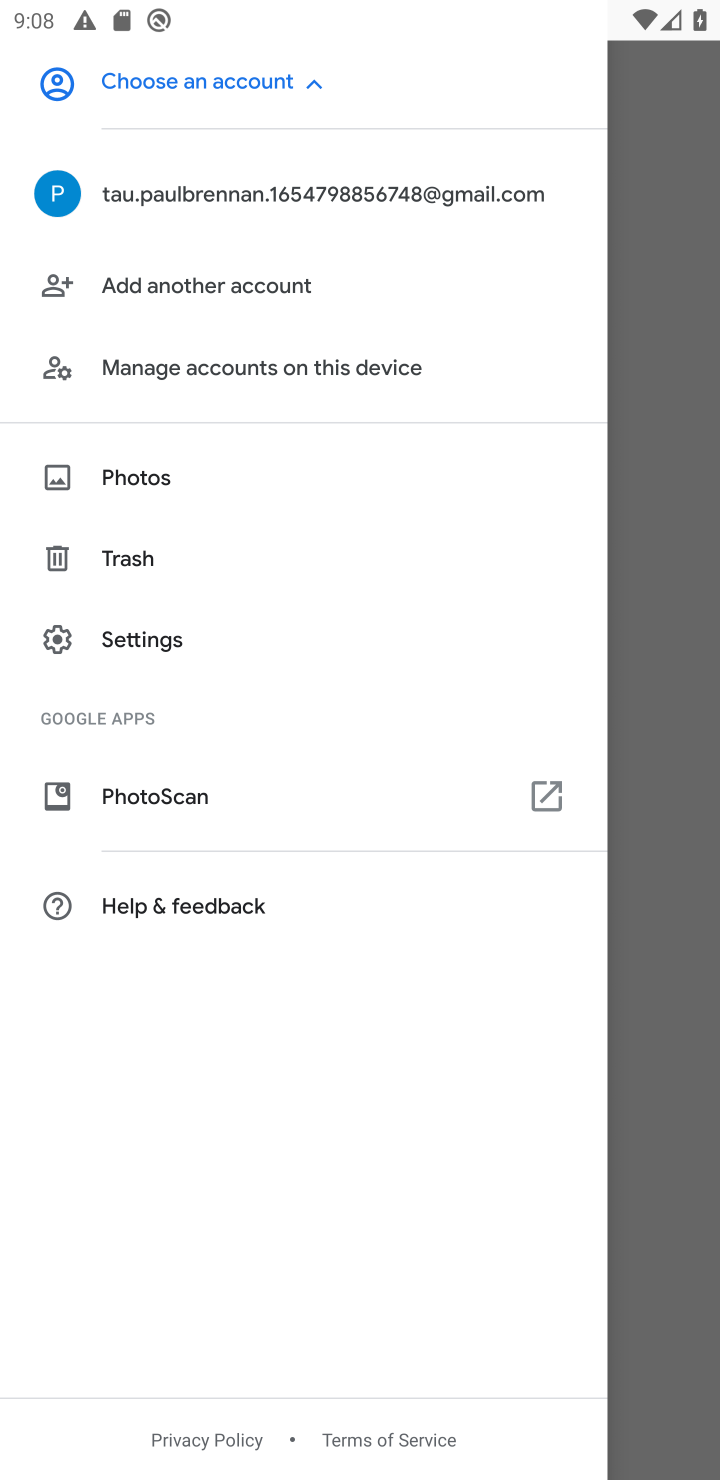
Step 30: click (134, 633)
Your task to perform on an android device: change the upload size in google photos Image 31: 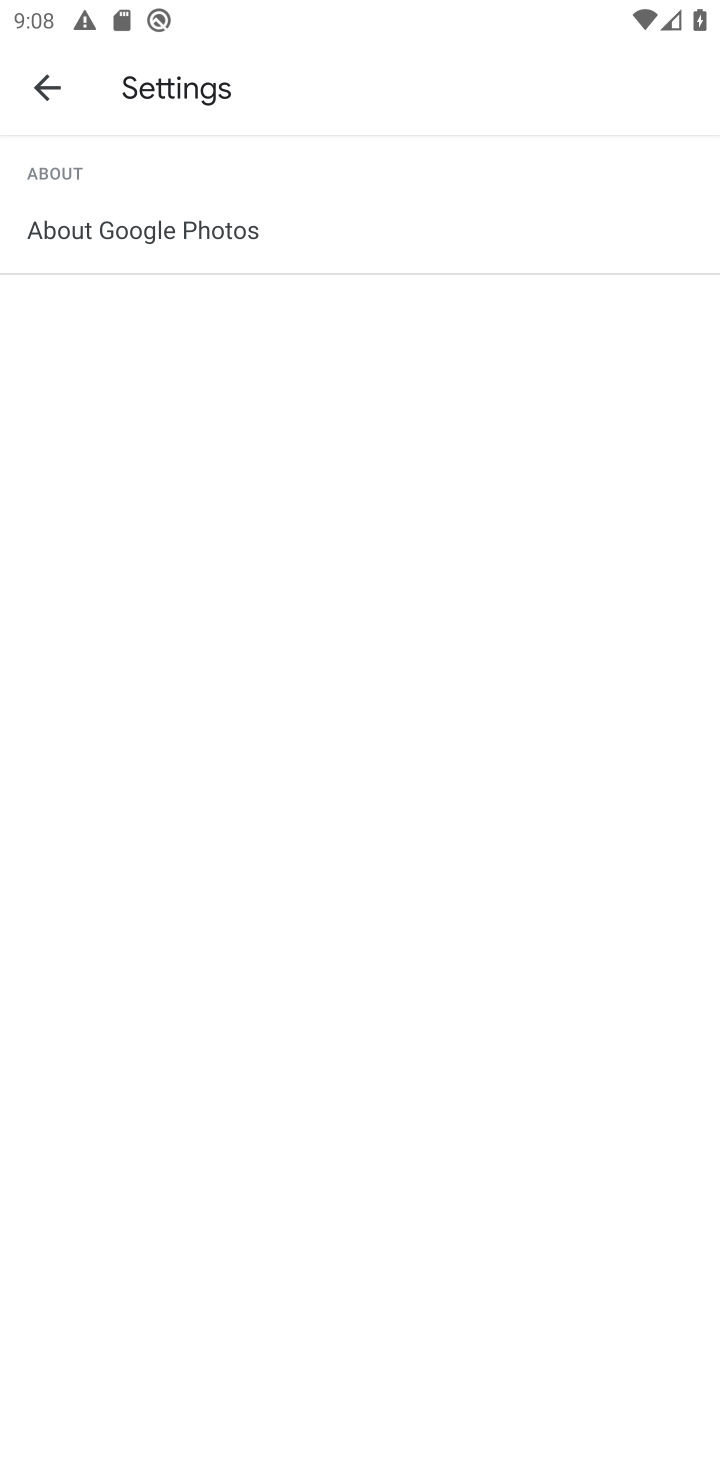
Step 31: click (74, 221)
Your task to perform on an android device: change the upload size in google photos Image 32: 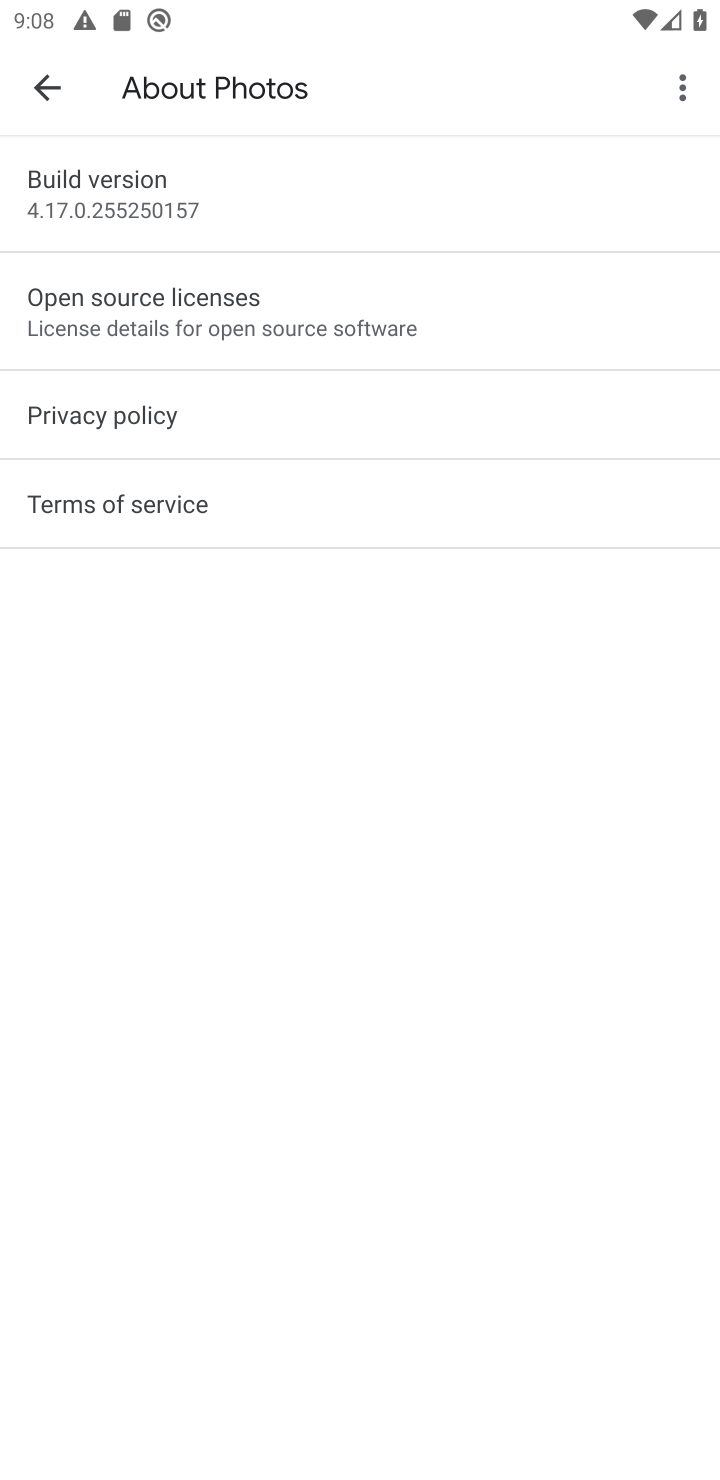
Step 32: task complete